Your task to perform on an android device: Search for "apple airpods pro" on newegg, select the first entry, add it to the cart, then select checkout. Image 0: 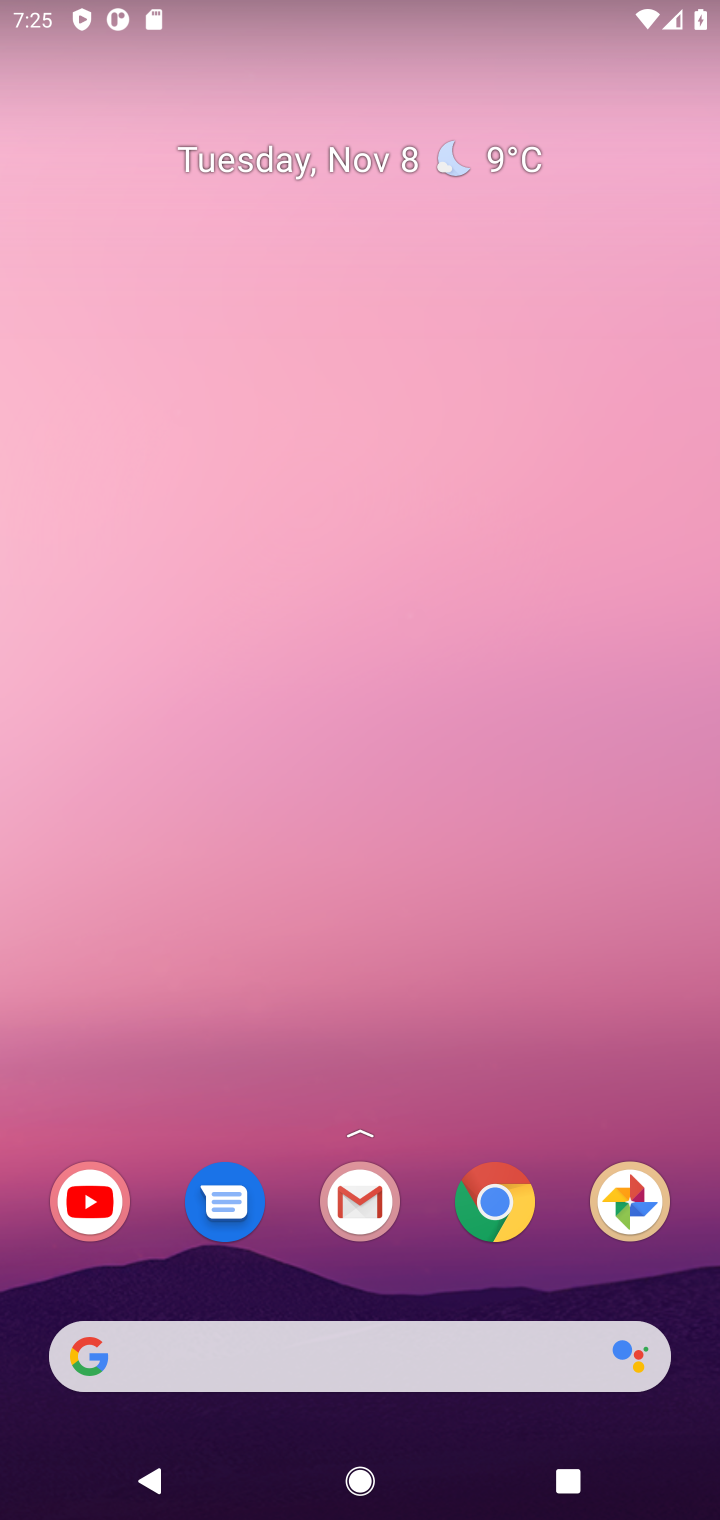
Step 0: click (219, 1355)
Your task to perform on an android device: Search for "apple airpods pro" on newegg, select the first entry, add it to the cart, then select checkout. Image 1: 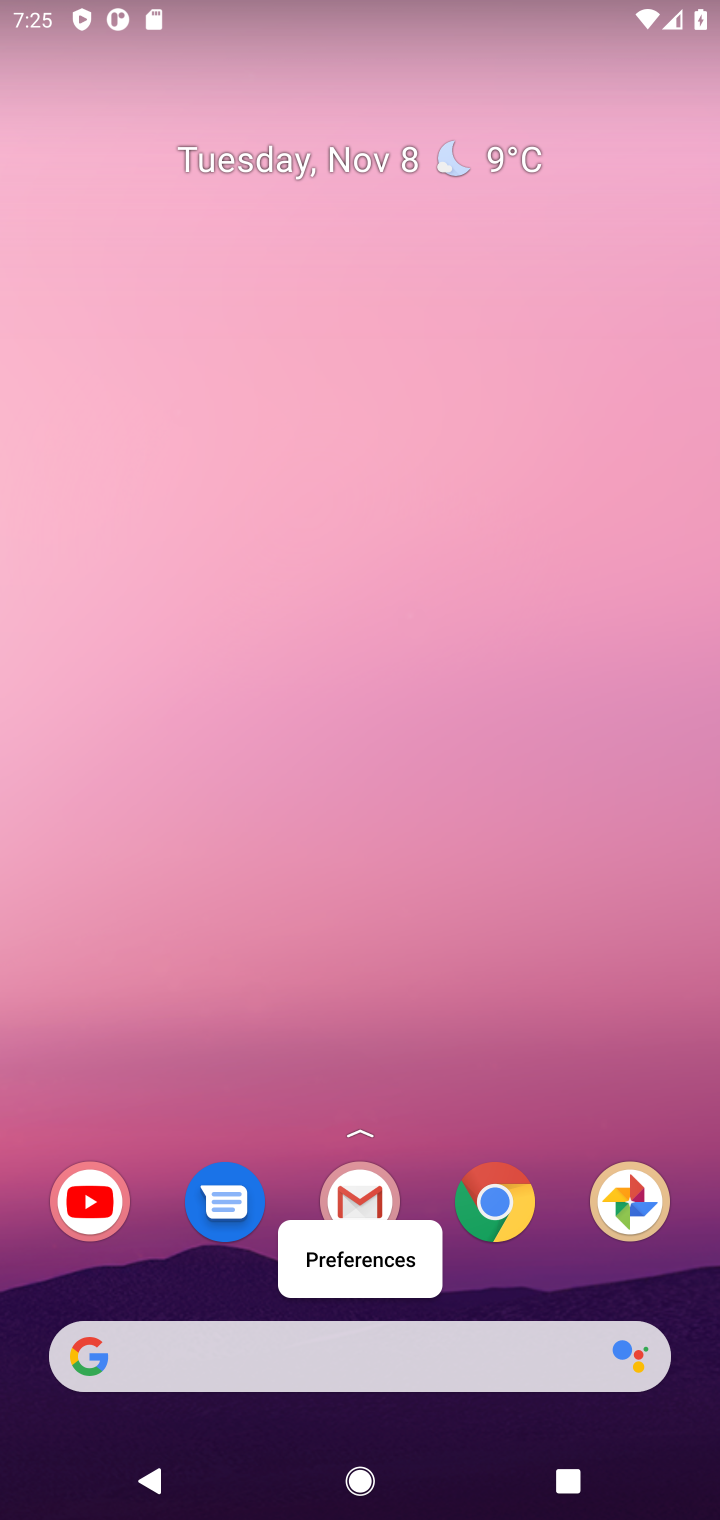
Step 1: click (219, 1355)
Your task to perform on an android device: Search for "apple airpods pro" on newegg, select the first entry, add it to the cart, then select checkout. Image 2: 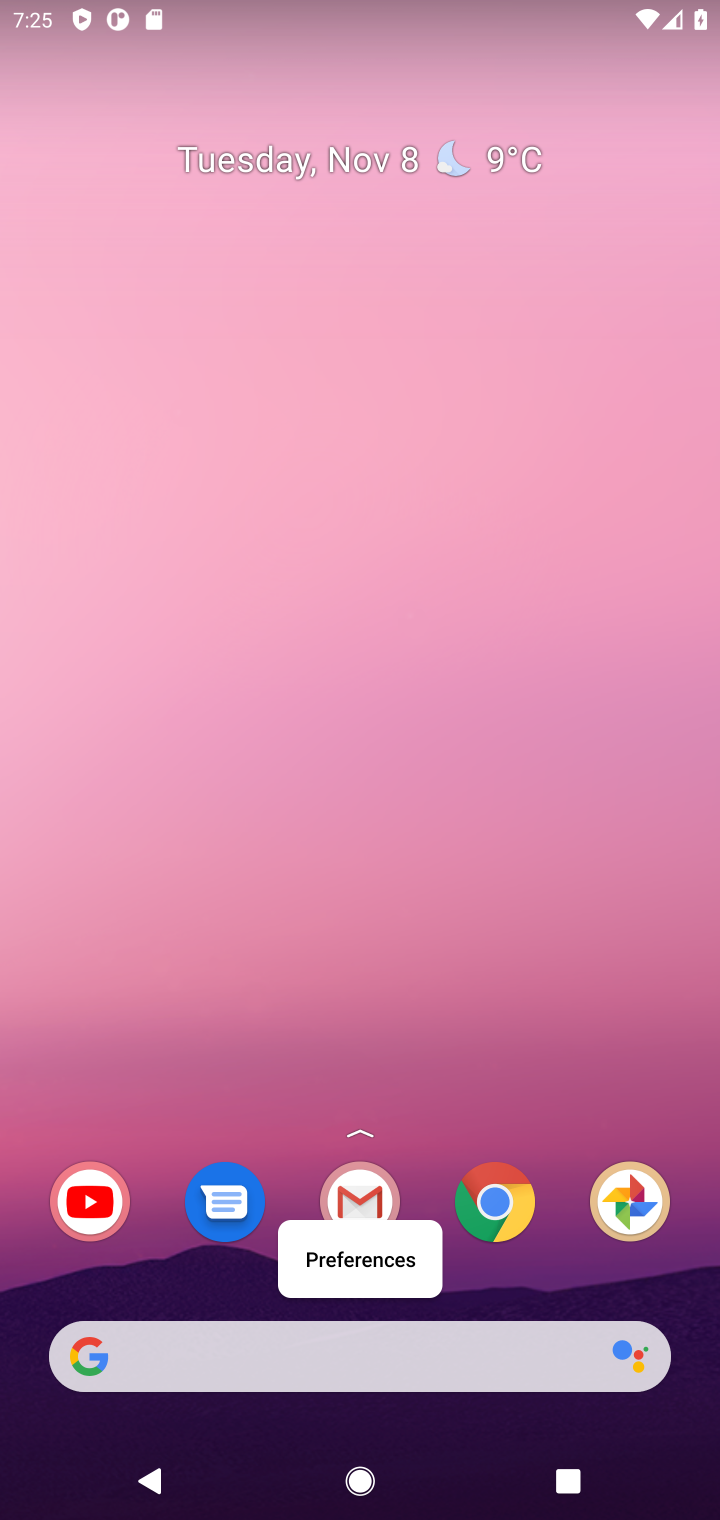
Step 2: click (219, 1355)
Your task to perform on an android device: Search for "apple airpods pro" on newegg, select the first entry, add it to the cart, then select checkout. Image 3: 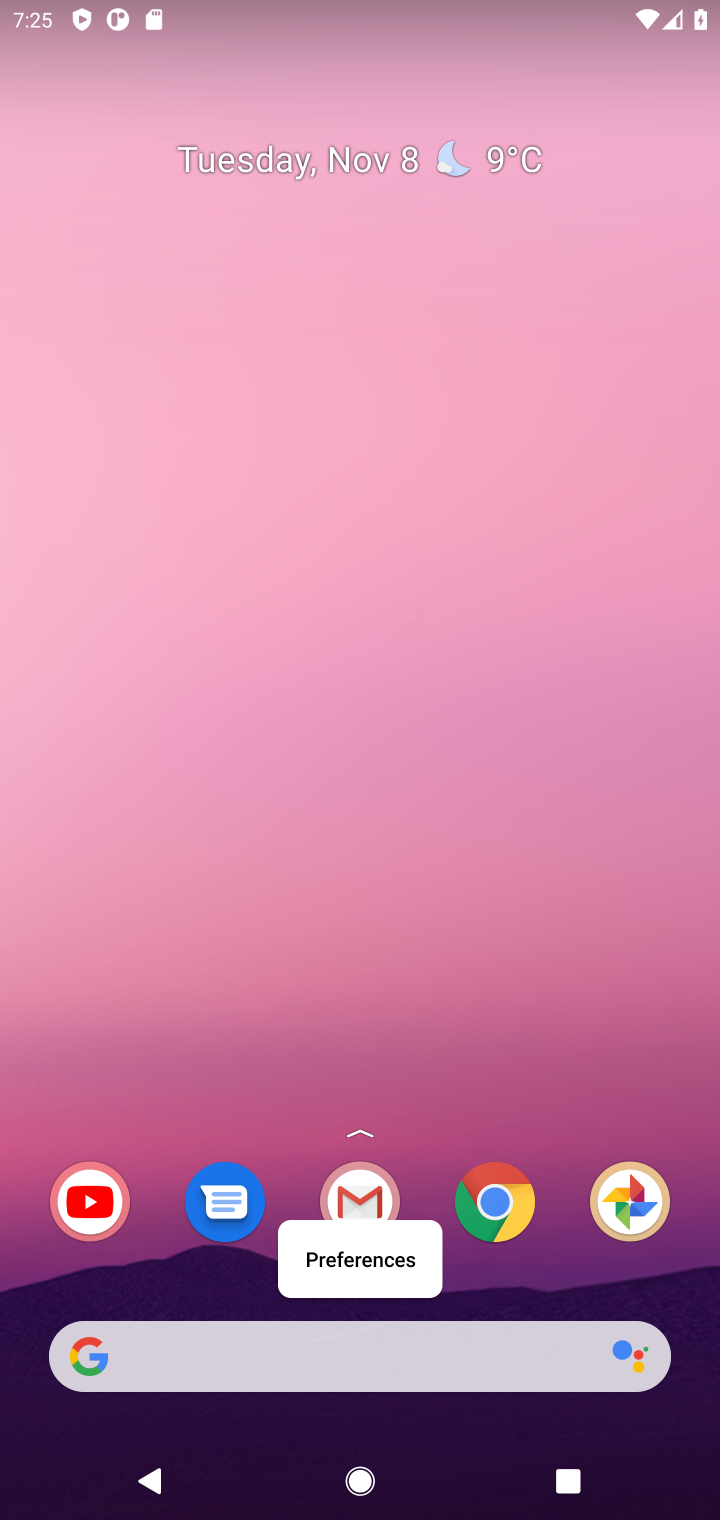
Step 3: click (251, 806)
Your task to perform on an android device: Search for "apple airpods pro" on newegg, select the first entry, add it to the cart, then select checkout. Image 4: 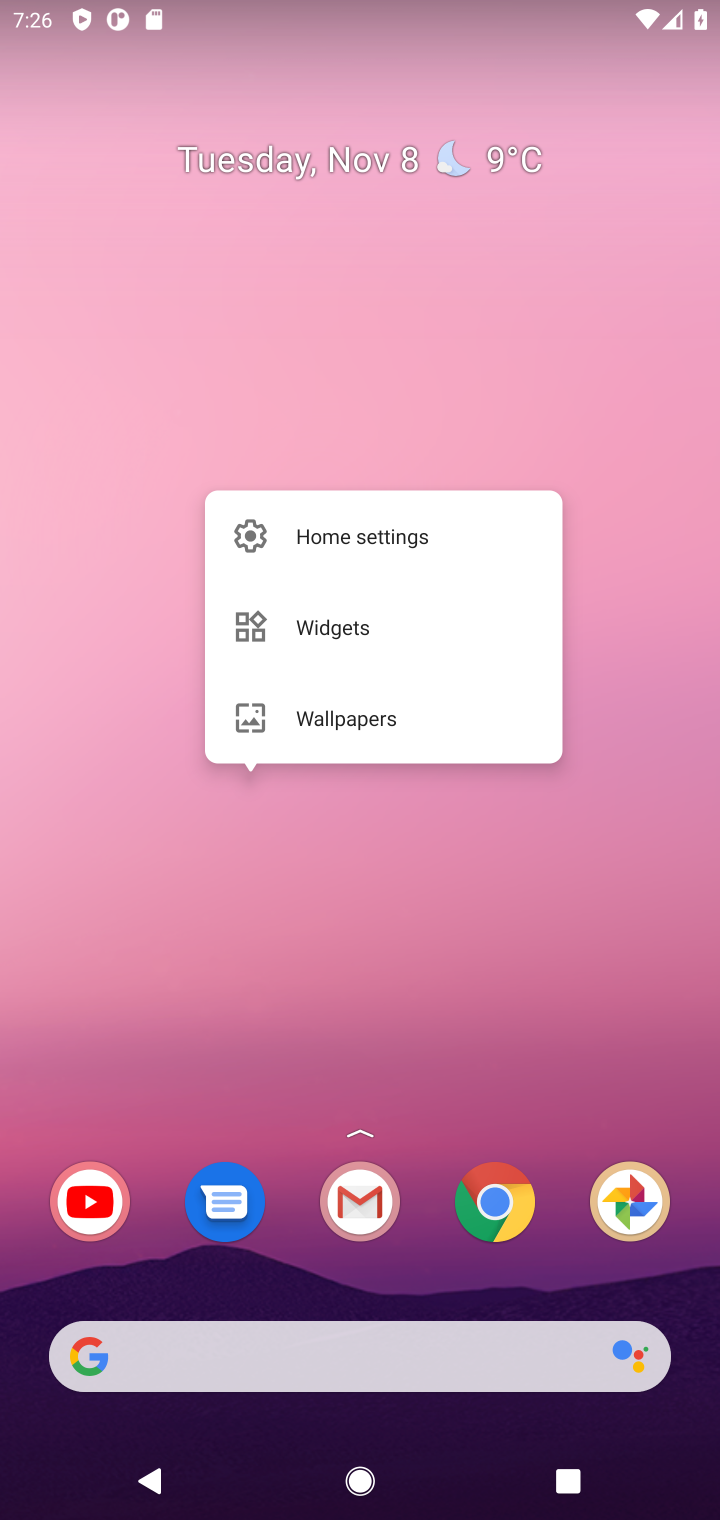
Step 4: click (369, 1347)
Your task to perform on an android device: Search for "apple airpods pro" on newegg, select the first entry, add it to the cart, then select checkout. Image 5: 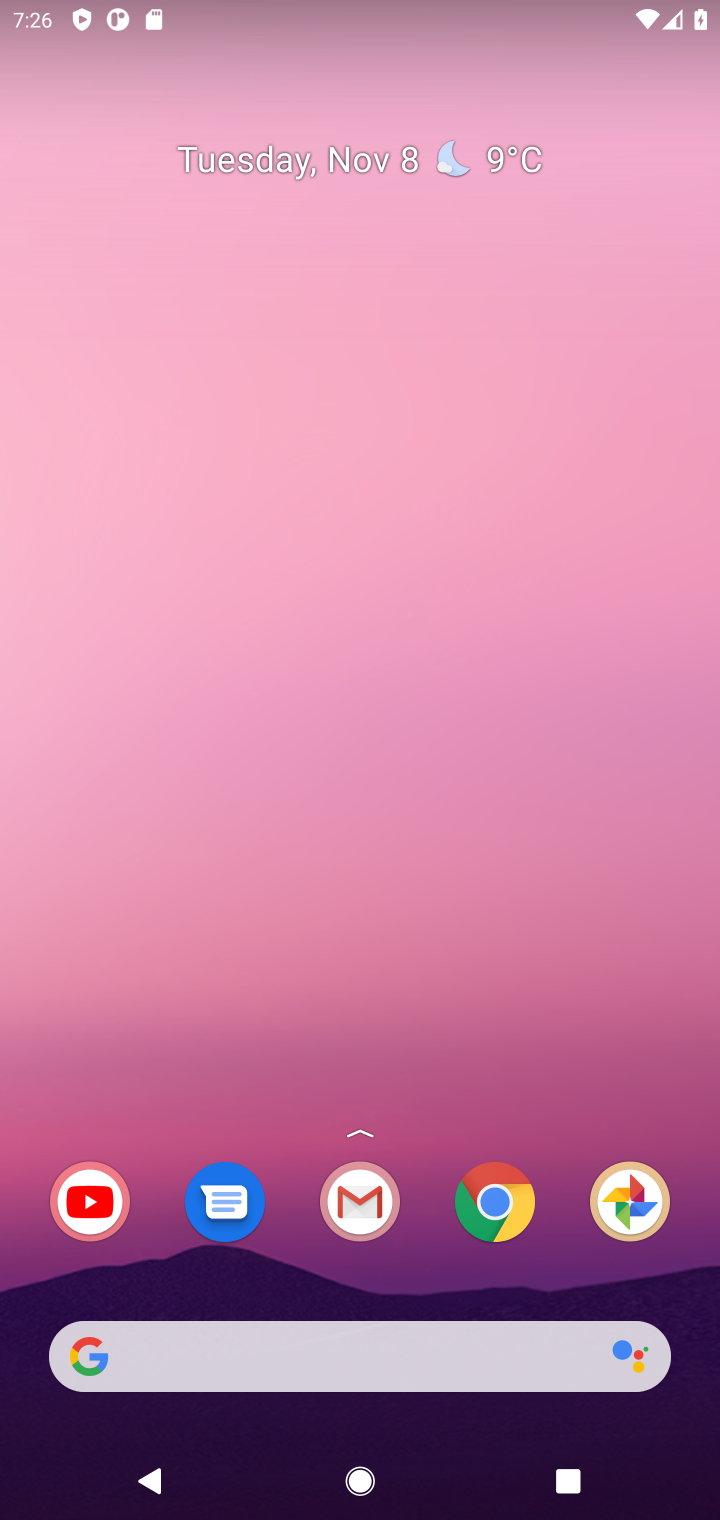
Step 5: click (371, 1352)
Your task to perform on an android device: Search for "apple airpods pro" on newegg, select the first entry, add it to the cart, then select checkout. Image 6: 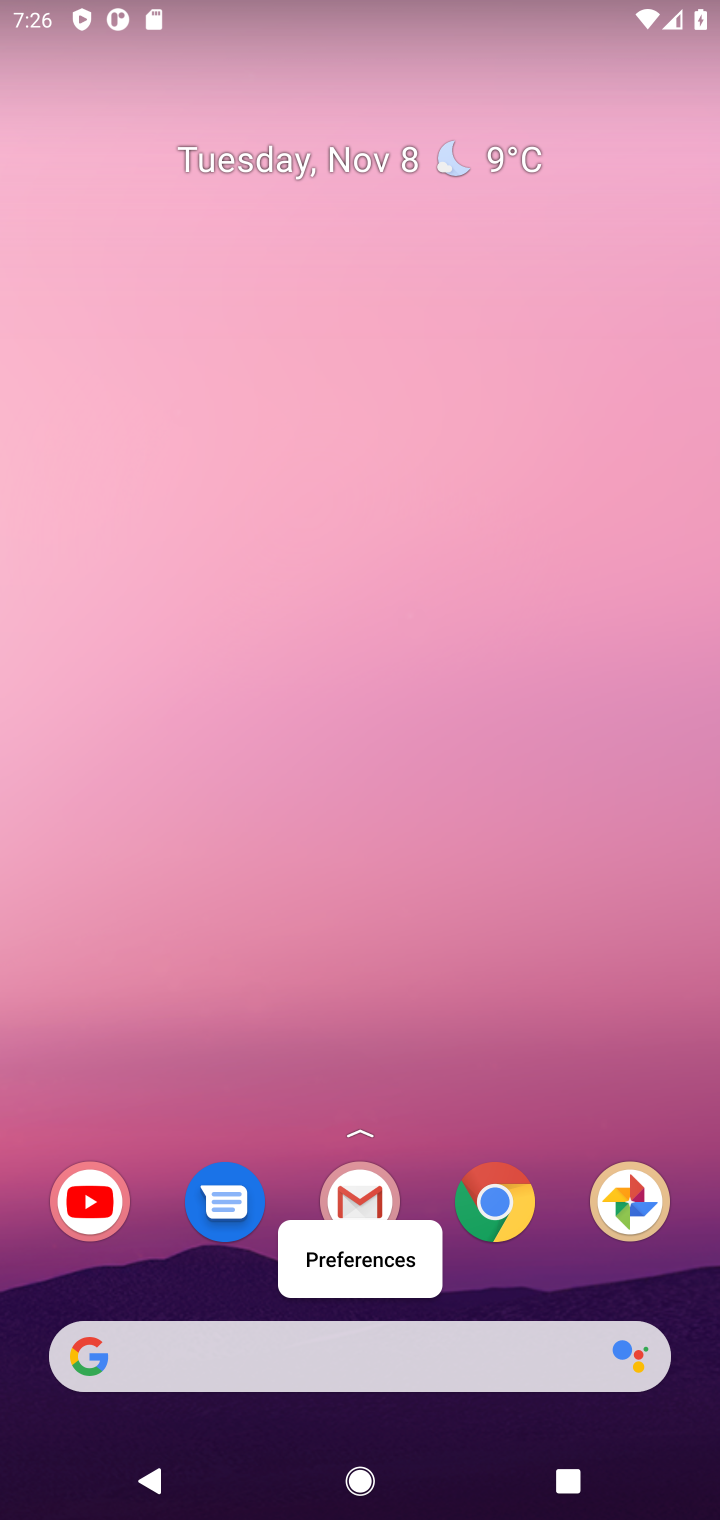
Step 6: click (371, 1352)
Your task to perform on an android device: Search for "apple airpods pro" on newegg, select the first entry, add it to the cart, then select checkout. Image 7: 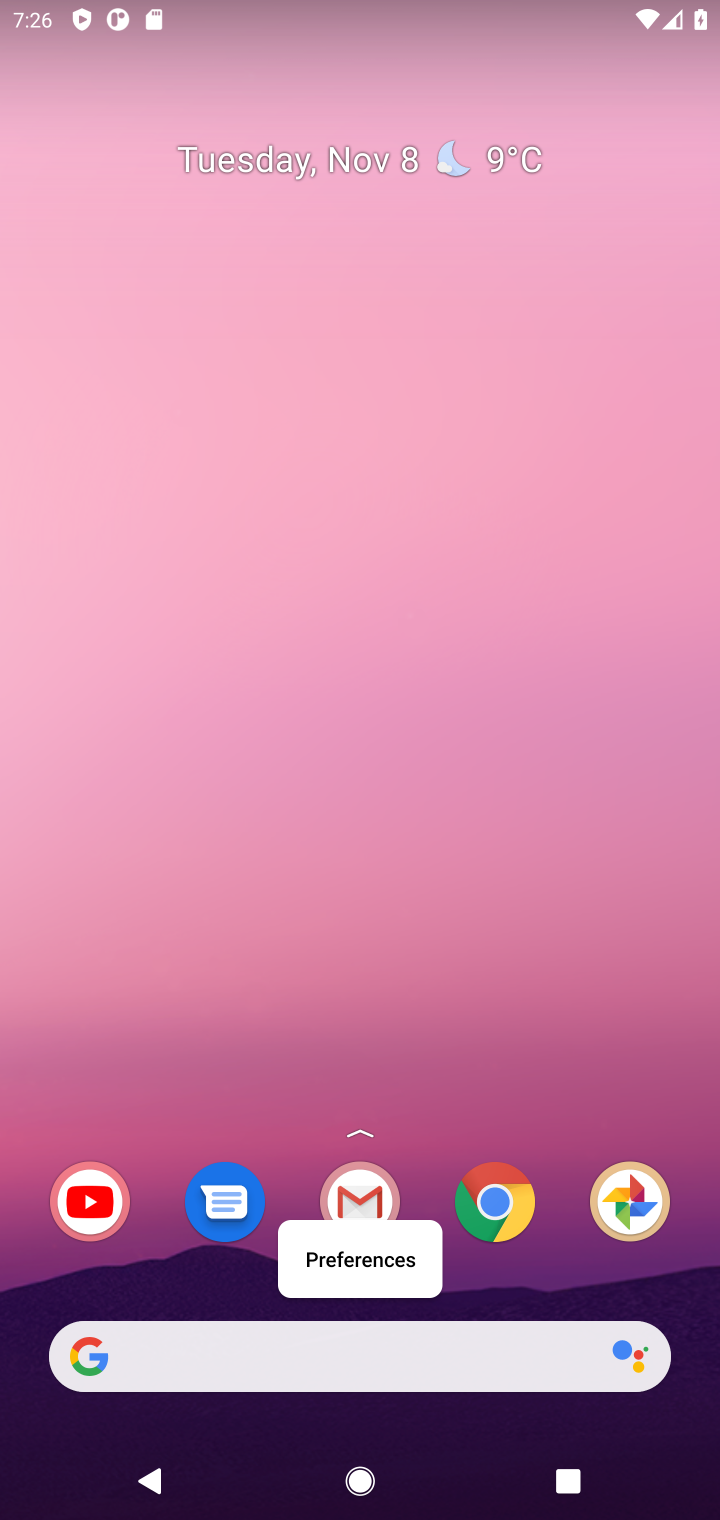
Step 7: click (373, 1354)
Your task to perform on an android device: Search for "apple airpods pro" on newegg, select the first entry, add it to the cart, then select checkout. Image 8: 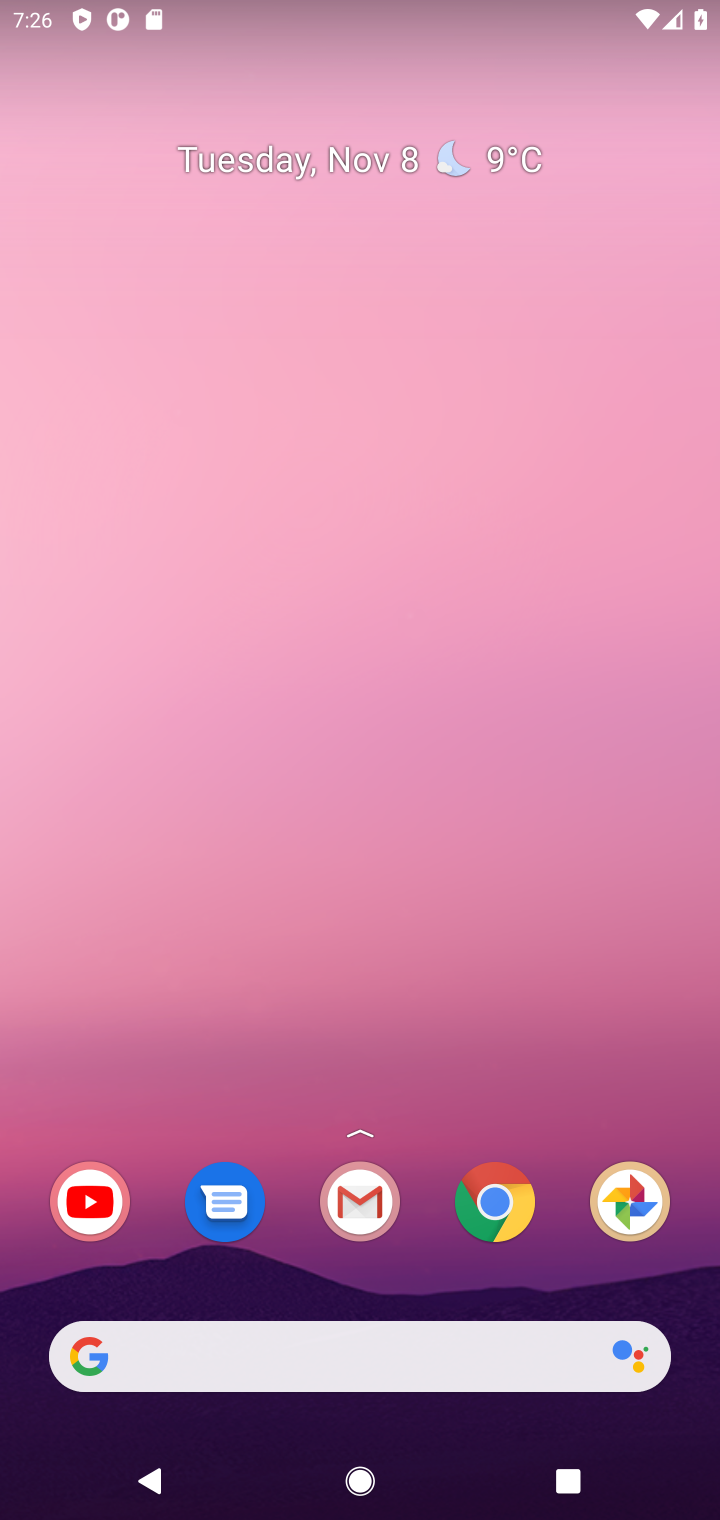
Step 8: click (501, 1189)
Your task to perform on an android device: Search for "apple airpods pro" on newegg, select the first entry, add it to the cart, then select checkout. Image 9: 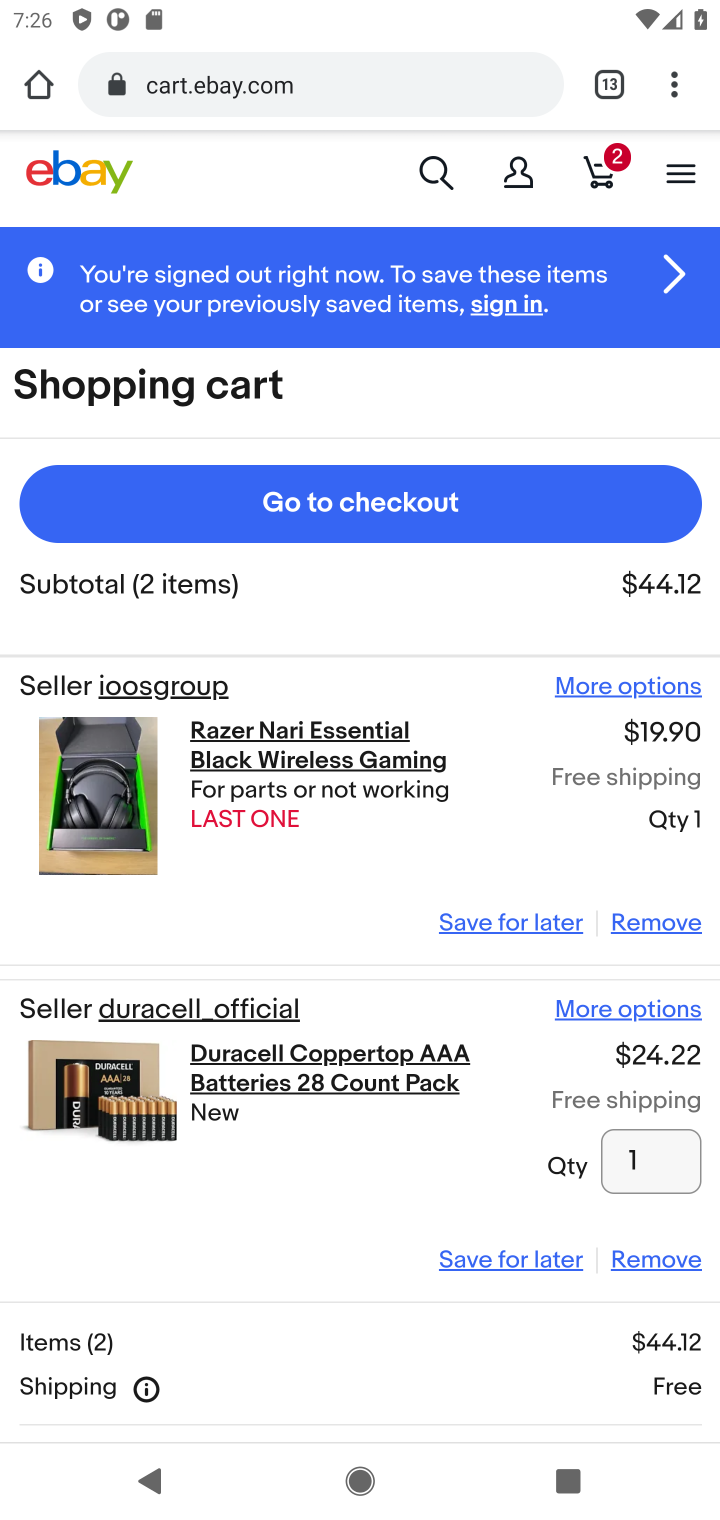
Step 9: click (359, 87)
Your task to perform on an android device: Search for "apple airpods pro" on newegg, select the first entry, add it to the cart, then select checkout. Image 10: 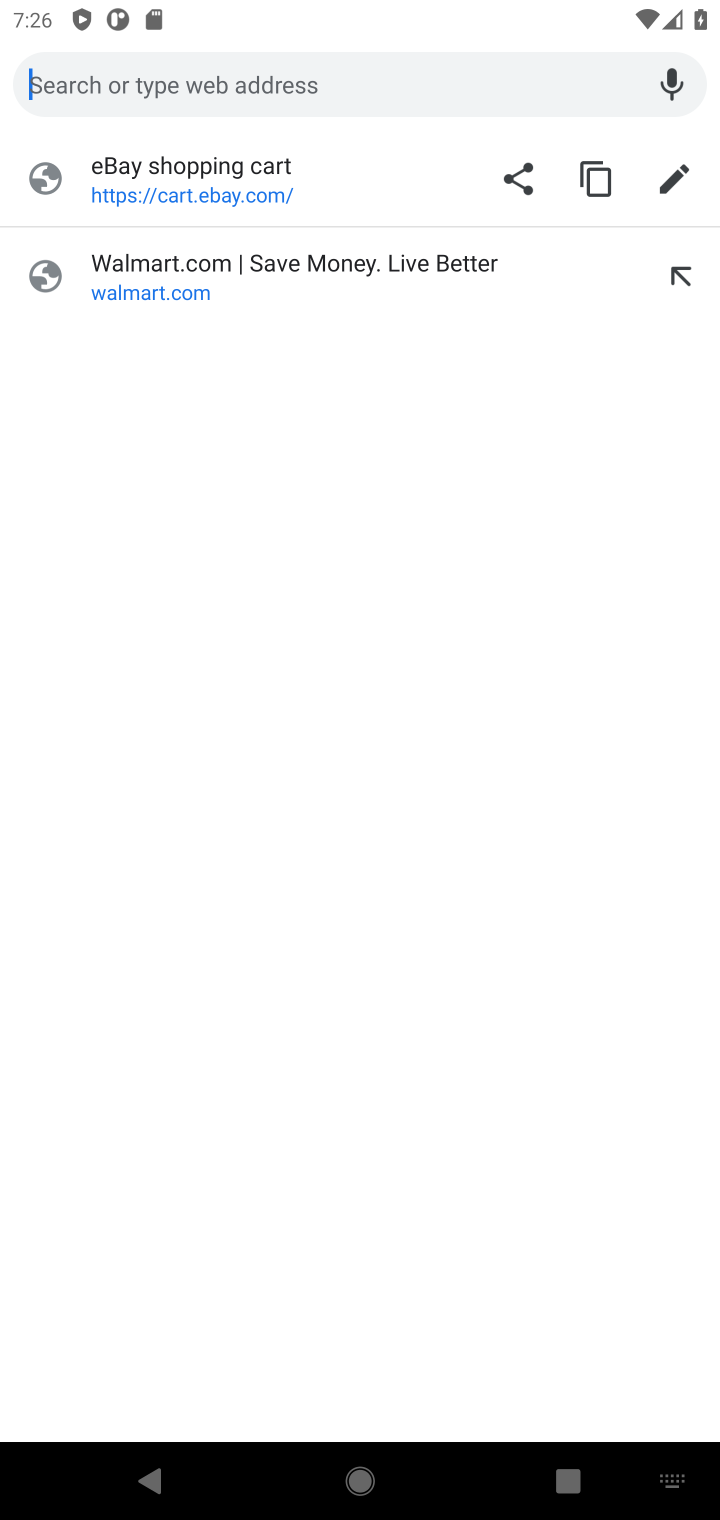
Step 10: type " newegg"
Your task to perform on an android device: Search for "apple airpods pro" on newegg, select the first entry, add it to the cart, then select checkout. Image 11: 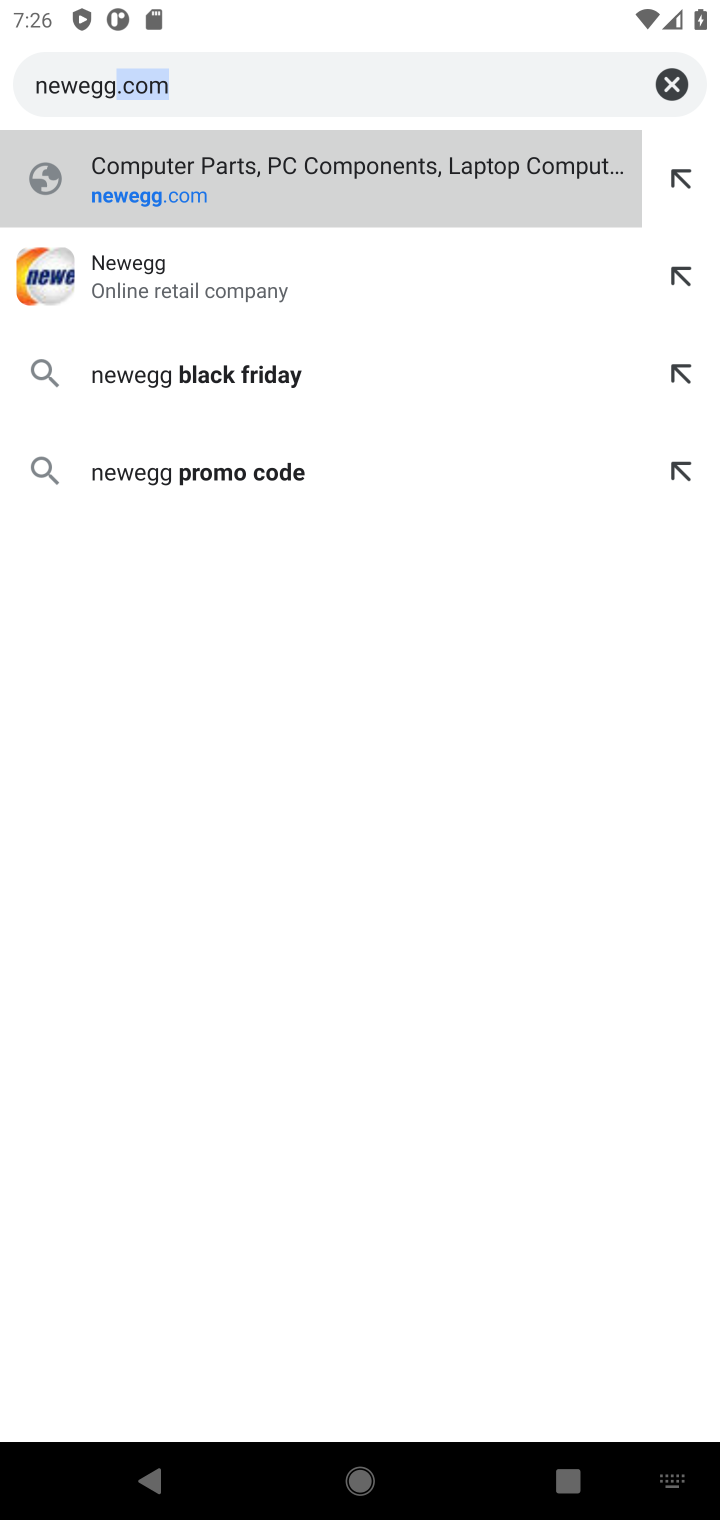
Step 11: press enter
Your task to perform on an android device: Search for "apple airpods pro" on newegg, select the first entry, add it to the cart, then select checkout. Image 12: 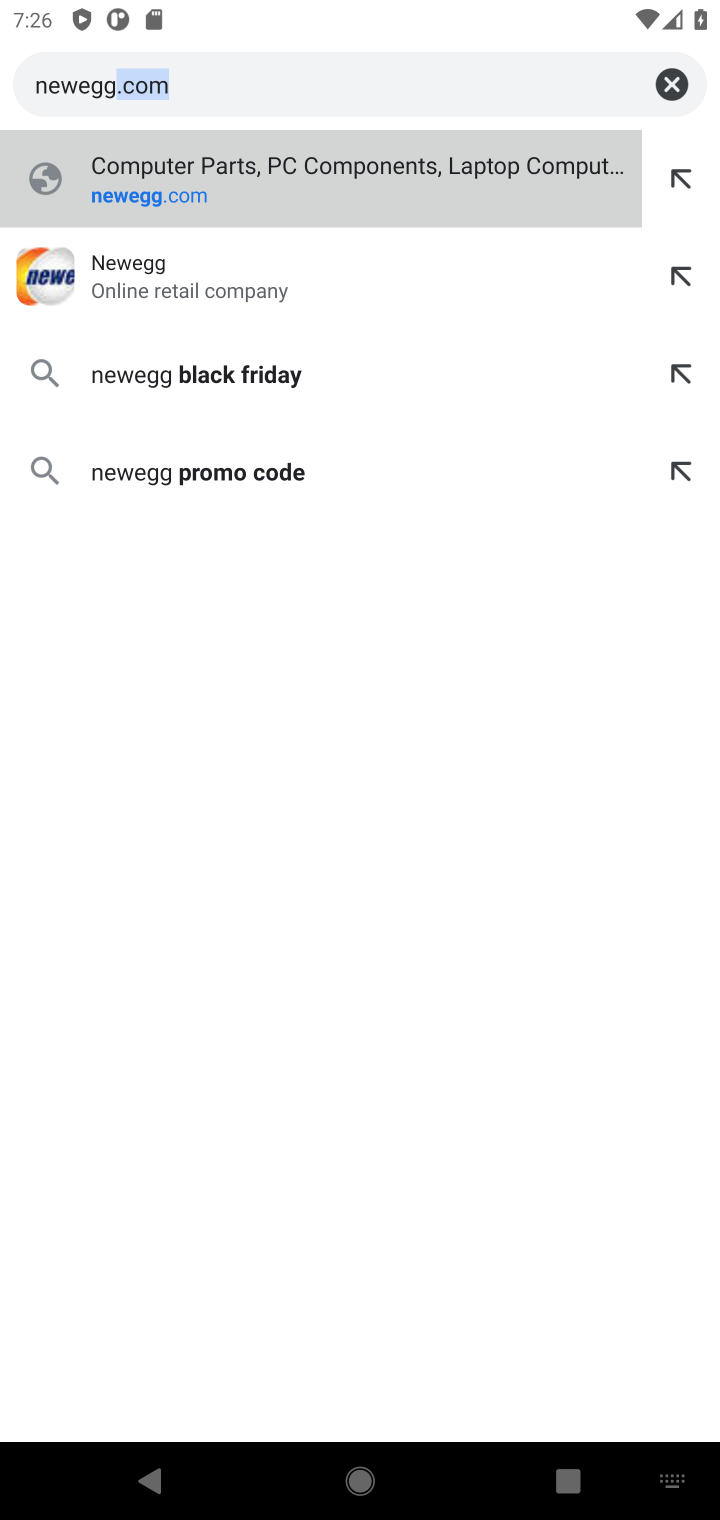
Step 12: type ""
Your task to perform on an android device: Search for "apple airpods pro" on newegg, select the first entry, add it to the cart, then select checkout. Image 13: 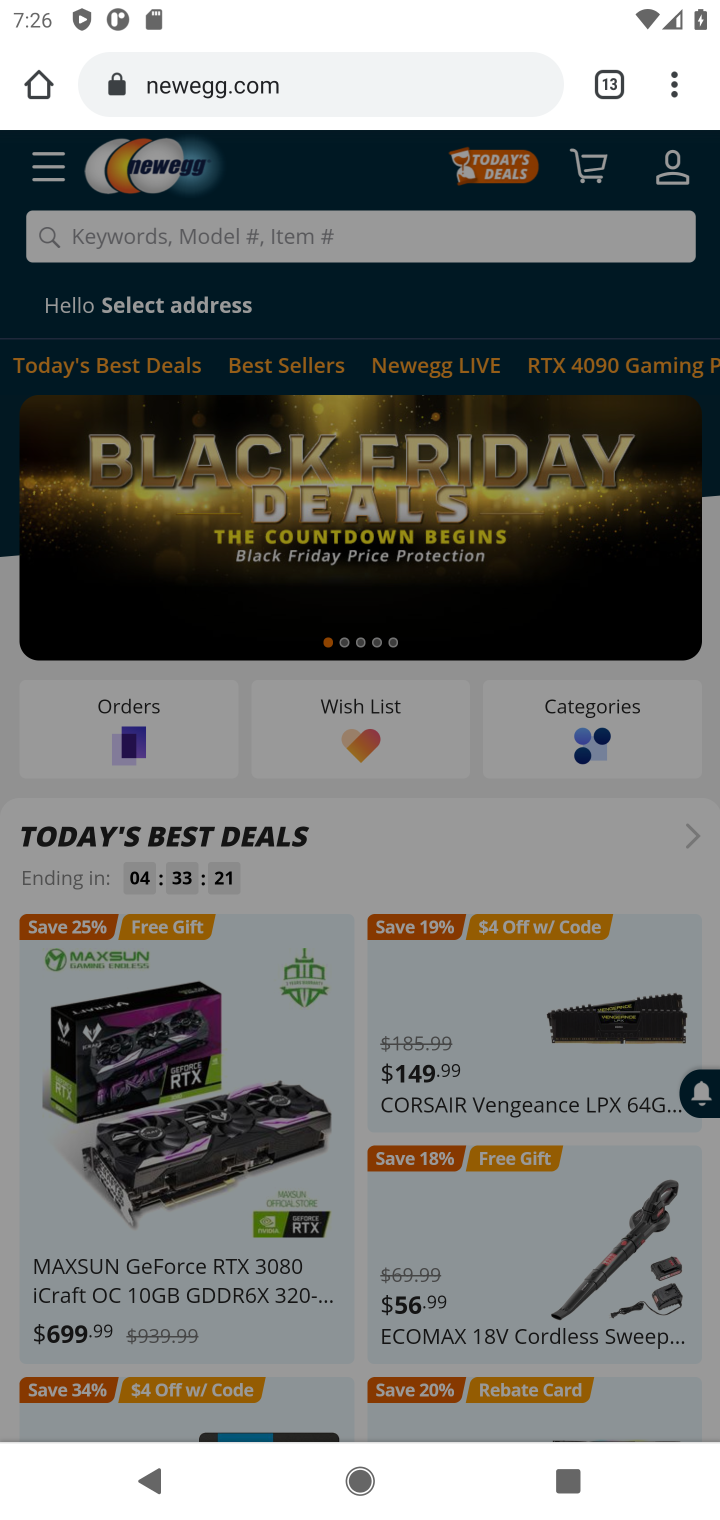
Step 13: drag from (360, 836) to (374, 599)
Your task to perform on an android device: Search for "apple airpods pro" on newegg, select the first entry, add it to the cart, then select checkout. Image 14: 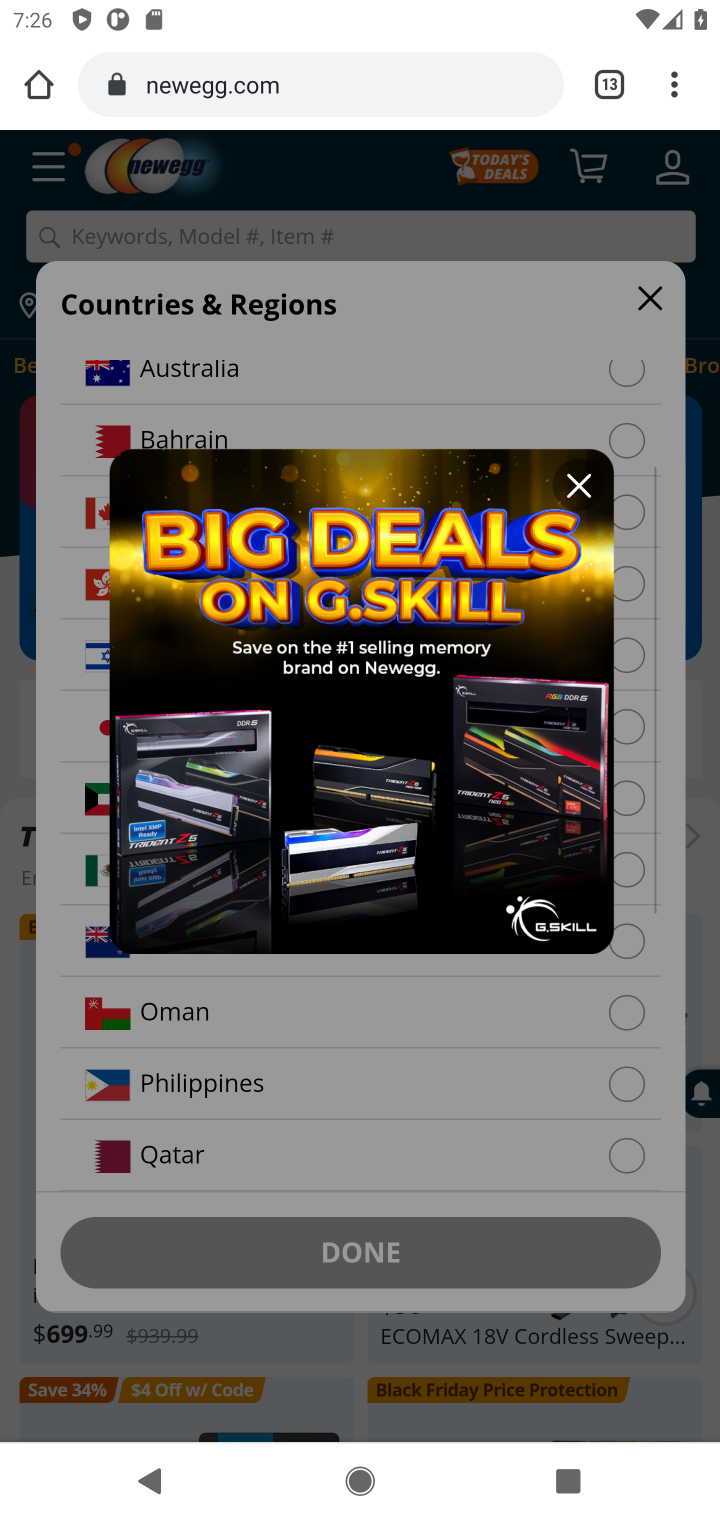
Step 14: click (582, 489)
Your task to perform on an android device: Search for "apple airpods pro" on newegg, select the first entry, add it to the cart, then select checkout. Image 15: 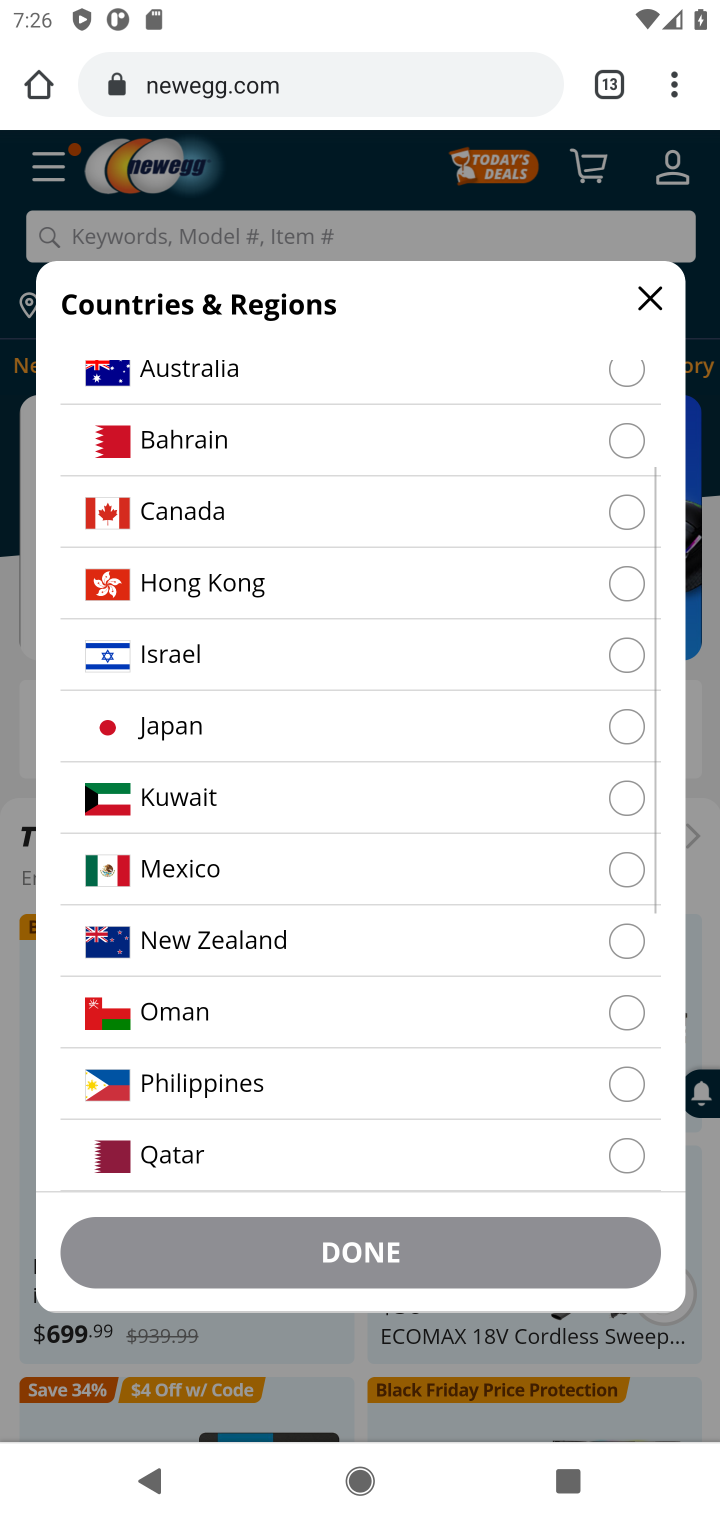
Step 15: drag from (311, 409) to (261, 1111)
Your task to perform on an android device: Search for "apple airpods pro" on newegg, select the first entry, add it to the cart, then select checkout. Image 16: 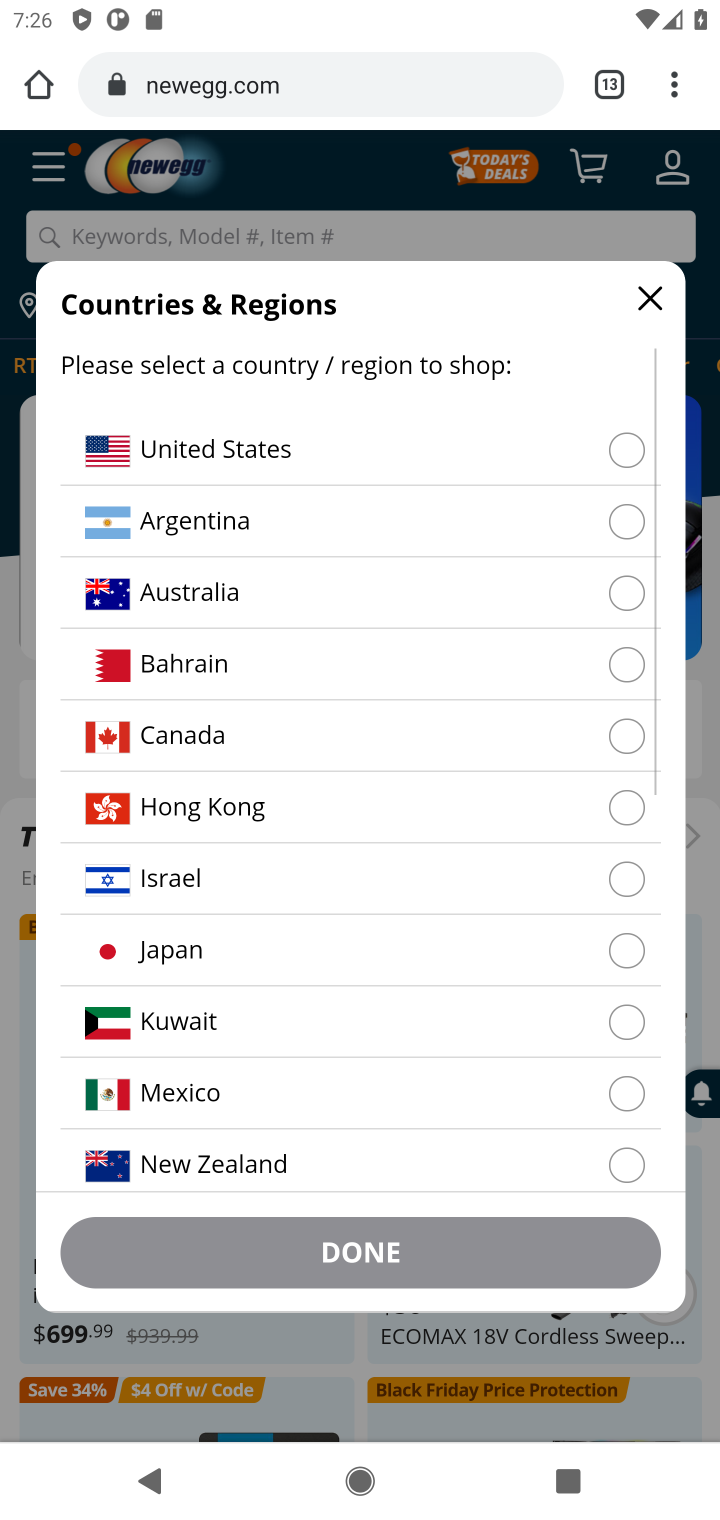
Step 16: click (266, 452)
Your task to perform on an android device: Search for "apple airpods pro" on newegg, select the first entry, add it to the cart, then select checkout. Image 17: 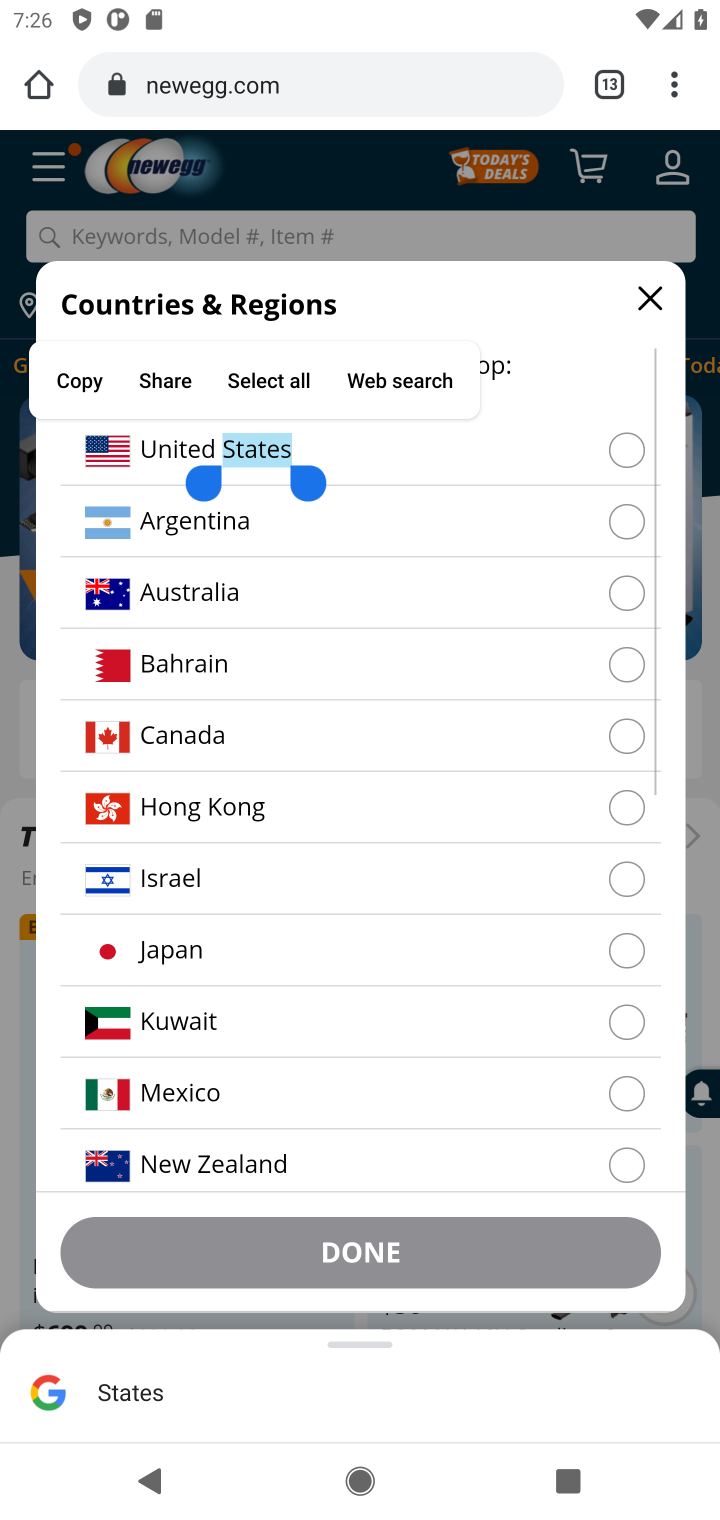
Step 17: click (619, 442)
Your task to perform on an android device: Search for "apple airpods pro" on newegg, select the first entry, add it to the cart, then select checkout. Image 18: 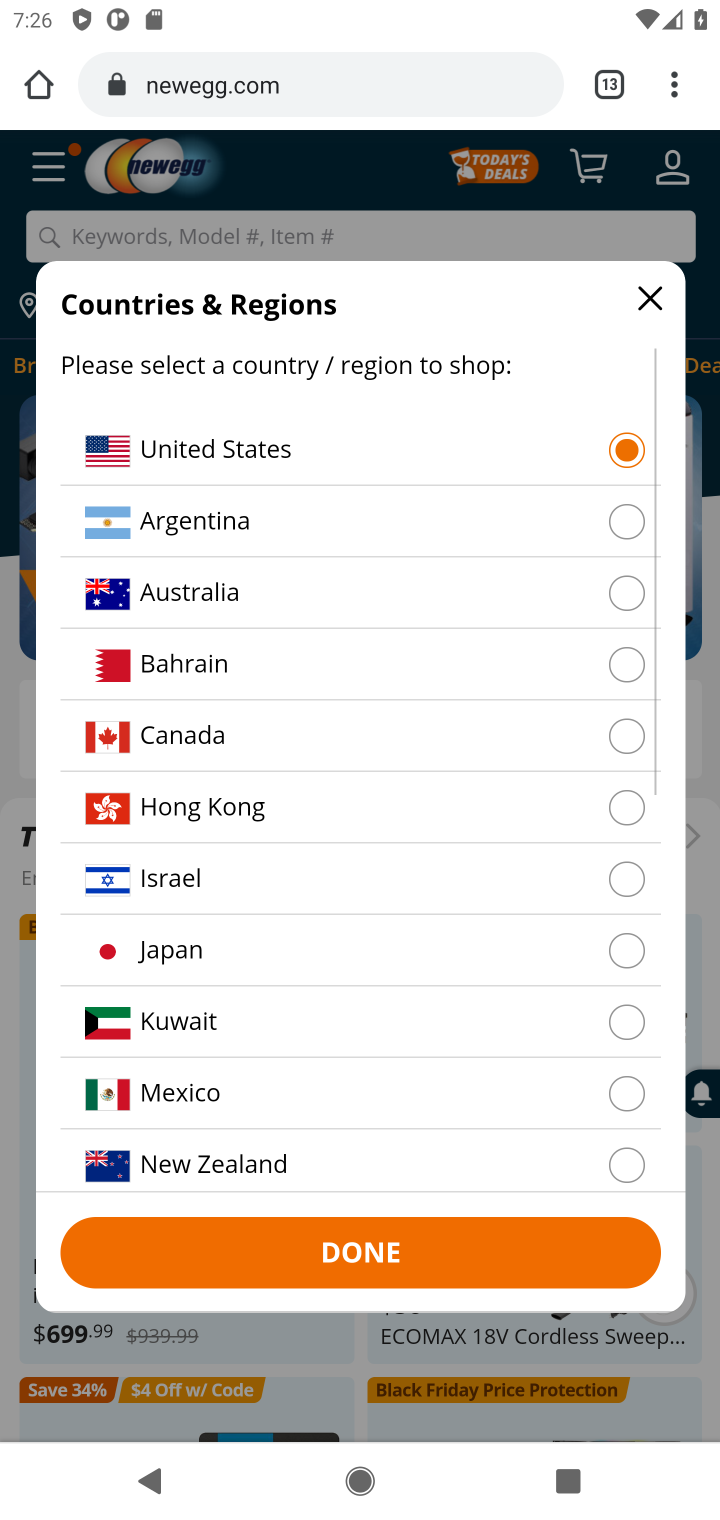
Step 18: click (377, 1235)
Your task to perform on an android device: Search for "apple airpods pro" on newegg, select the first entry, add it to the cart, then select checkout. Image 19: 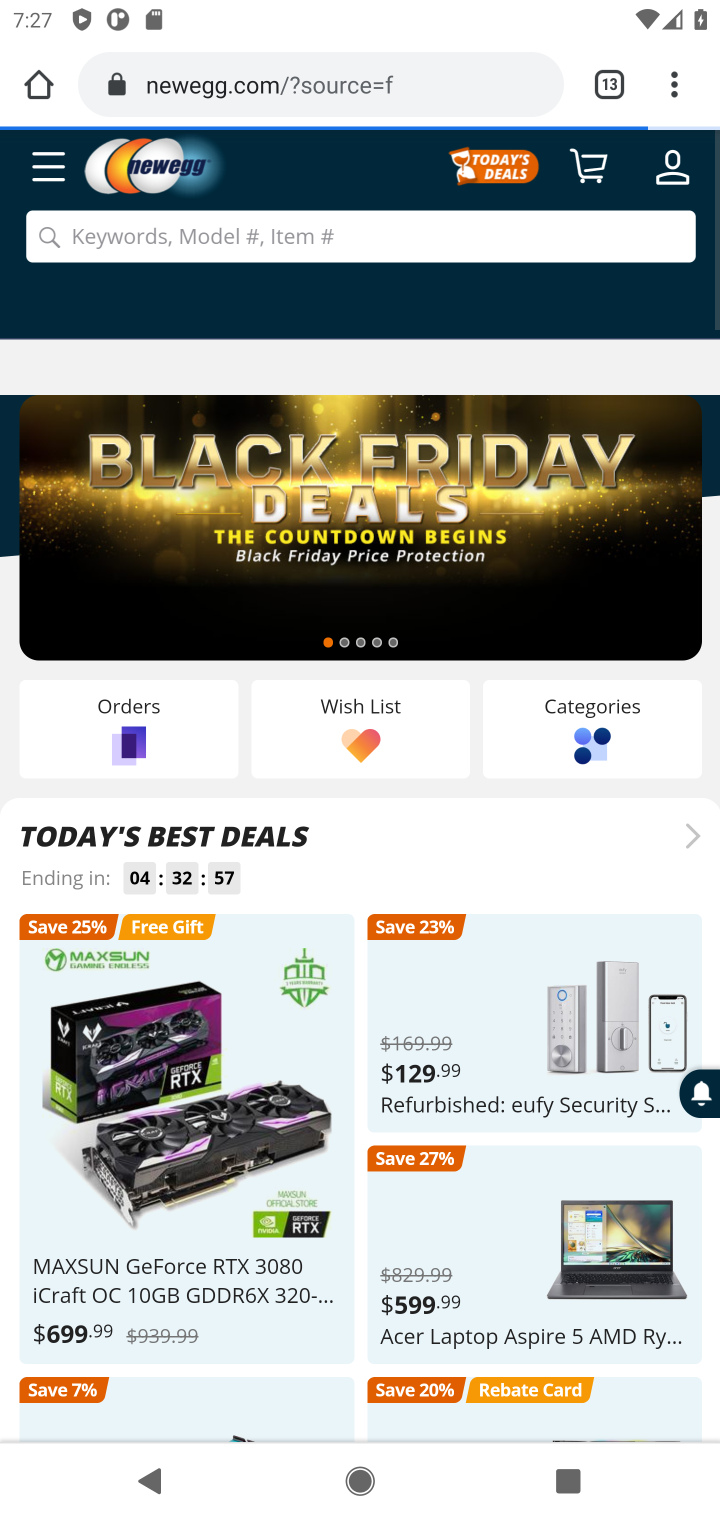
Step 19: drag from (365, 824) to (379, 302)
Your task to perform on an android device: Search for "apple airpods pro" on newegg, select the first entry, add it to the cart, then select checkout. Image 20: 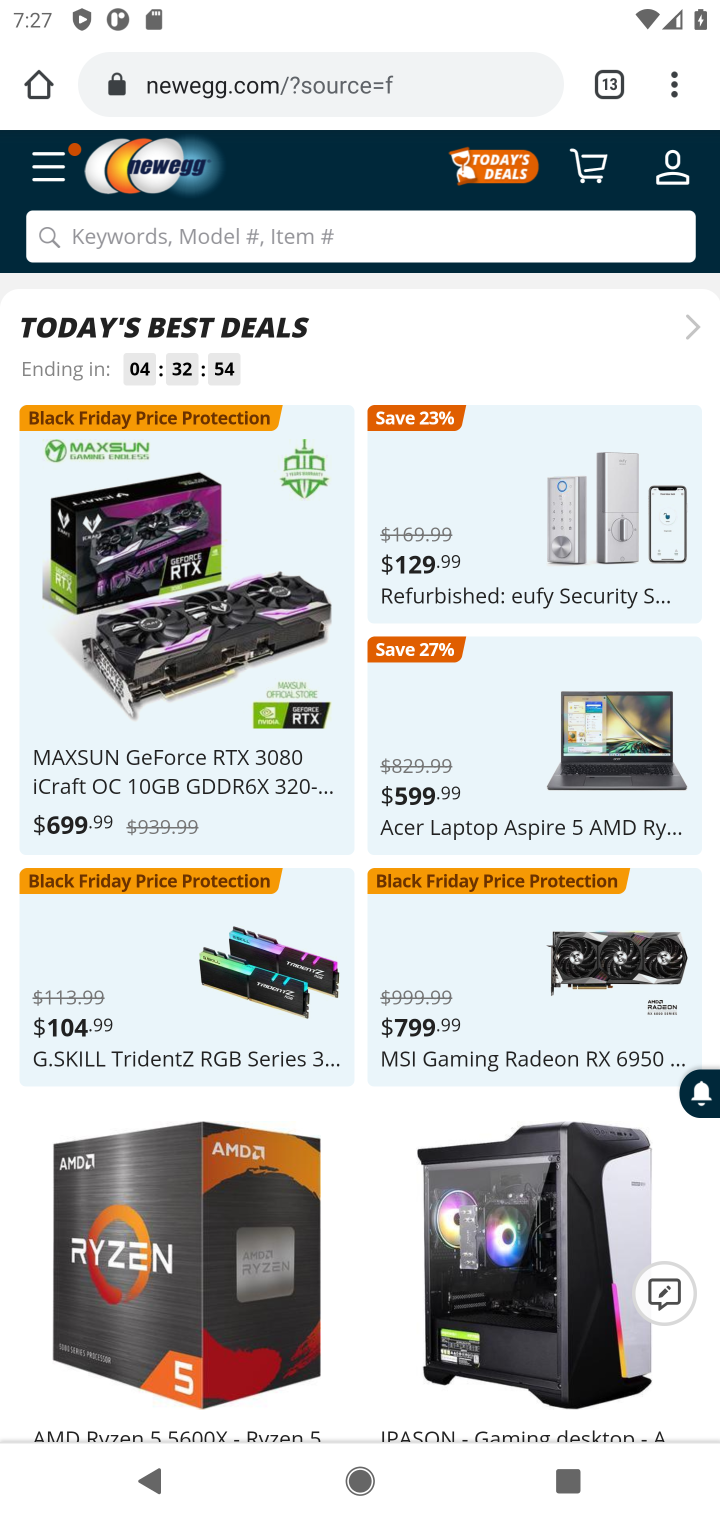
Step 20: drag from (359, 1092) to (356, 230)
Your task to perform on an android device: Search for "apple airpods pro" on newegg, select the first entry, add it to the cart, then select checkout. Image 21: 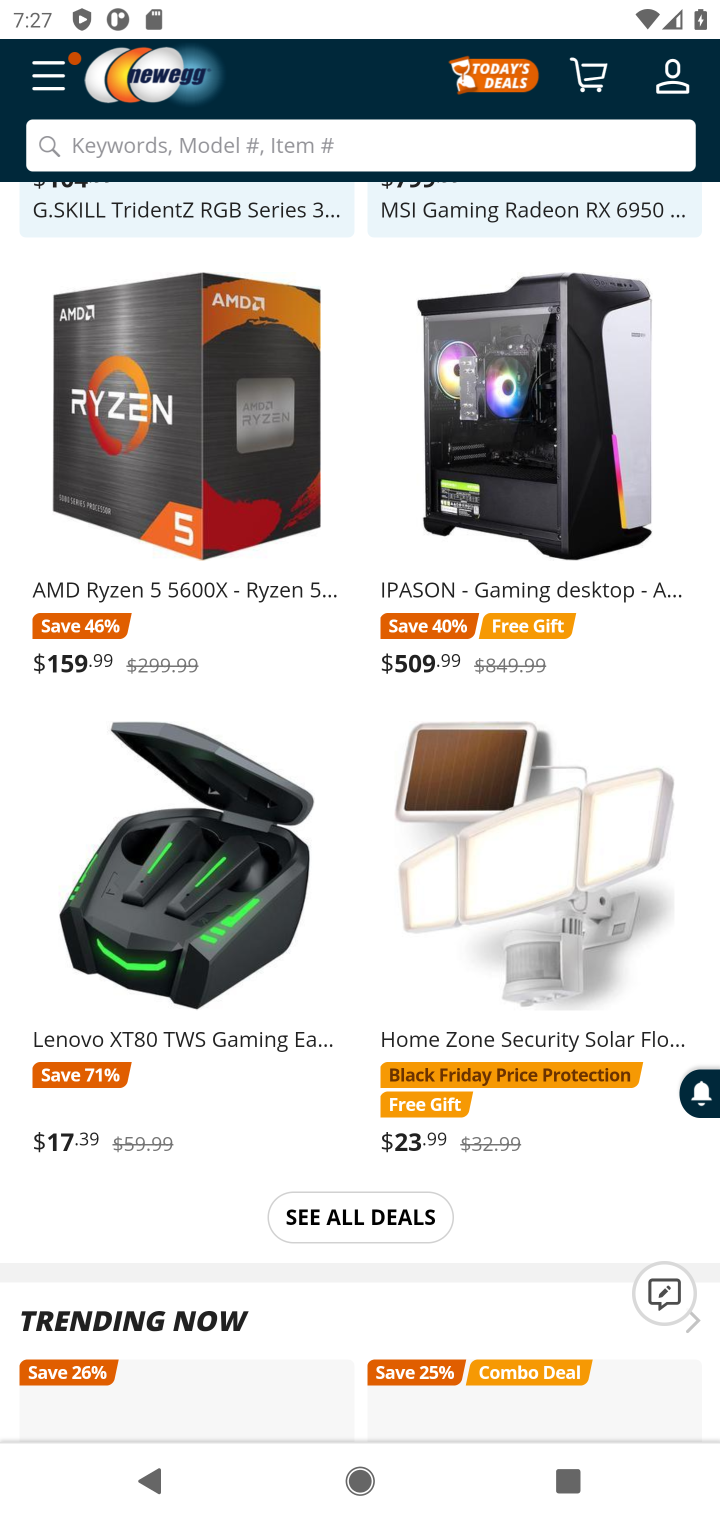
Step 21: drag from (251, 1213) to (358, 460)
Your task to perform on an android device: Search for "apple airpods pro" on newegg, select the first entry, add it to the cart, then select checkout. Image 22: 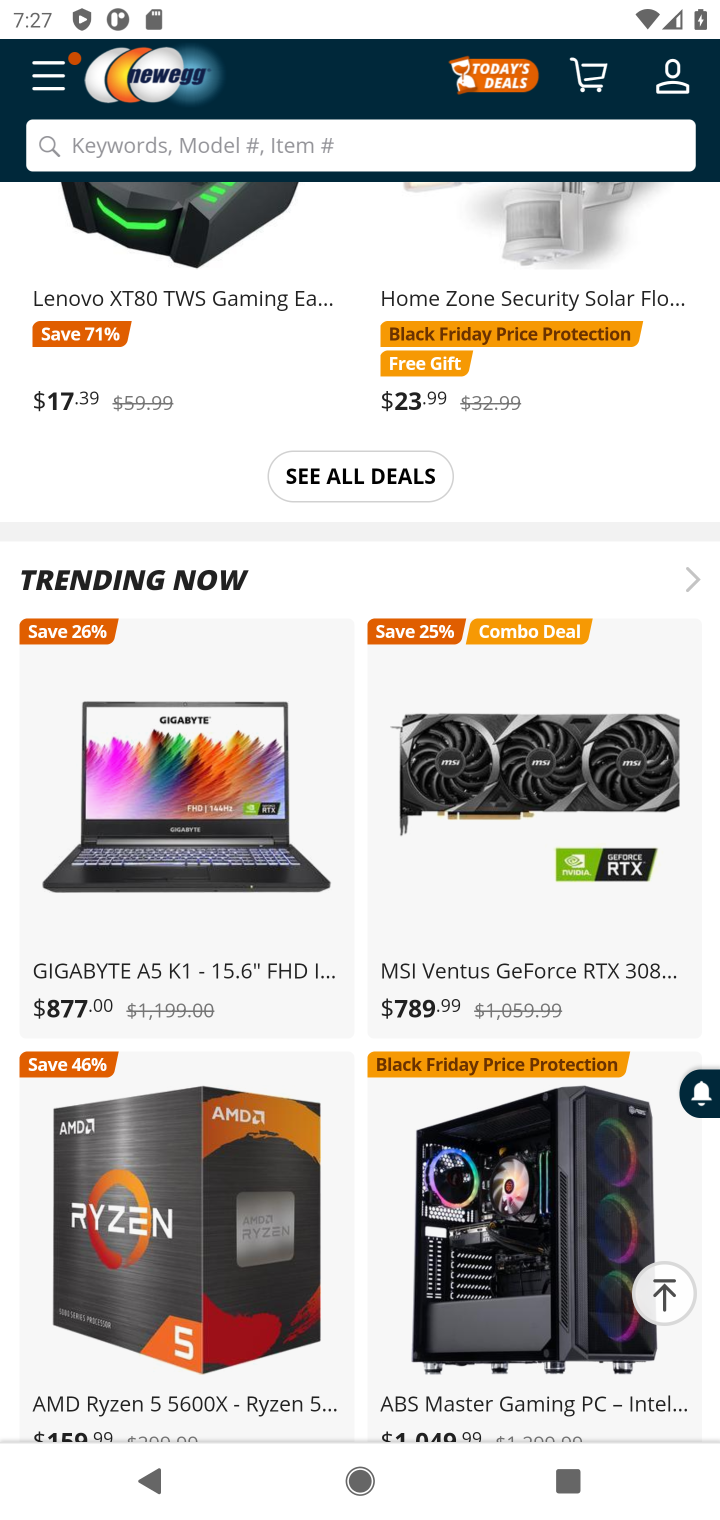
Step 22: click (328, 132)
Your task to perform on an android device: Search for "apple airpods pro" on newegg, select the first entry, add it to the cart, then select checkout. Image 23: 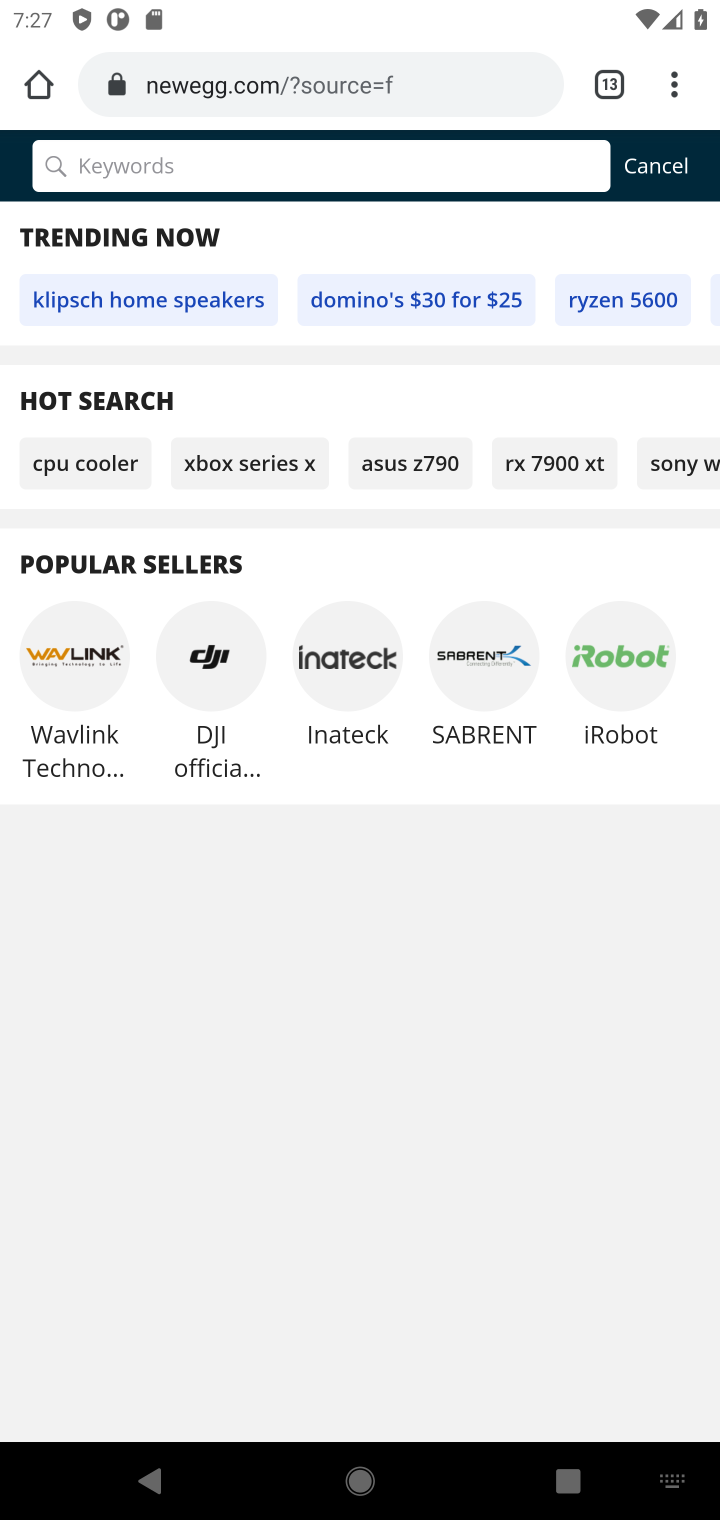
Step 23: type "apple airpods pro"
Your task to perform on an android device: Search for "apple airpods pro" on newegg, select the first entry, add it to the cart, then select checkout. Image 24: 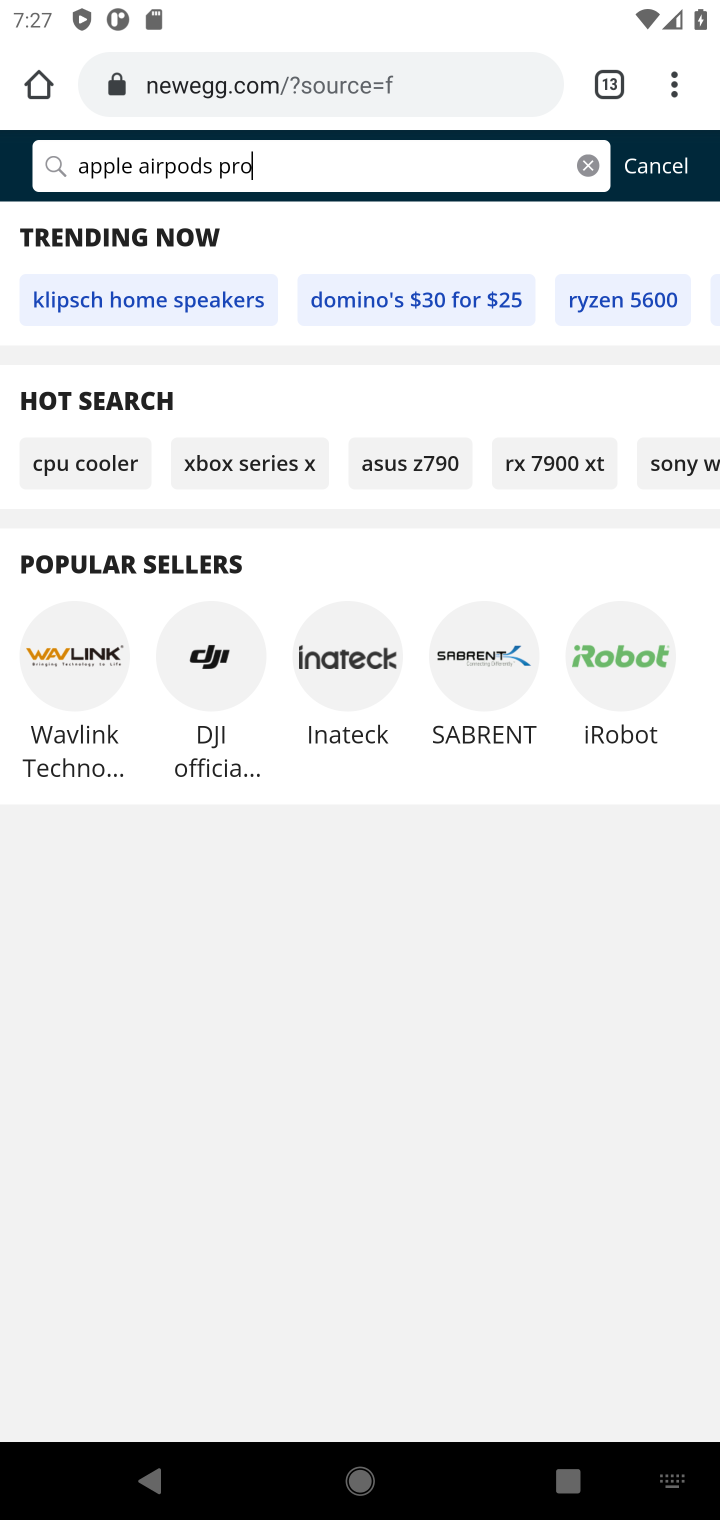
Step 24: type ""
Your task to perform on an android device: Search for "apple airpods pro" on newegg, select the first entry, add it to the cart, then select checkout. Image 25: 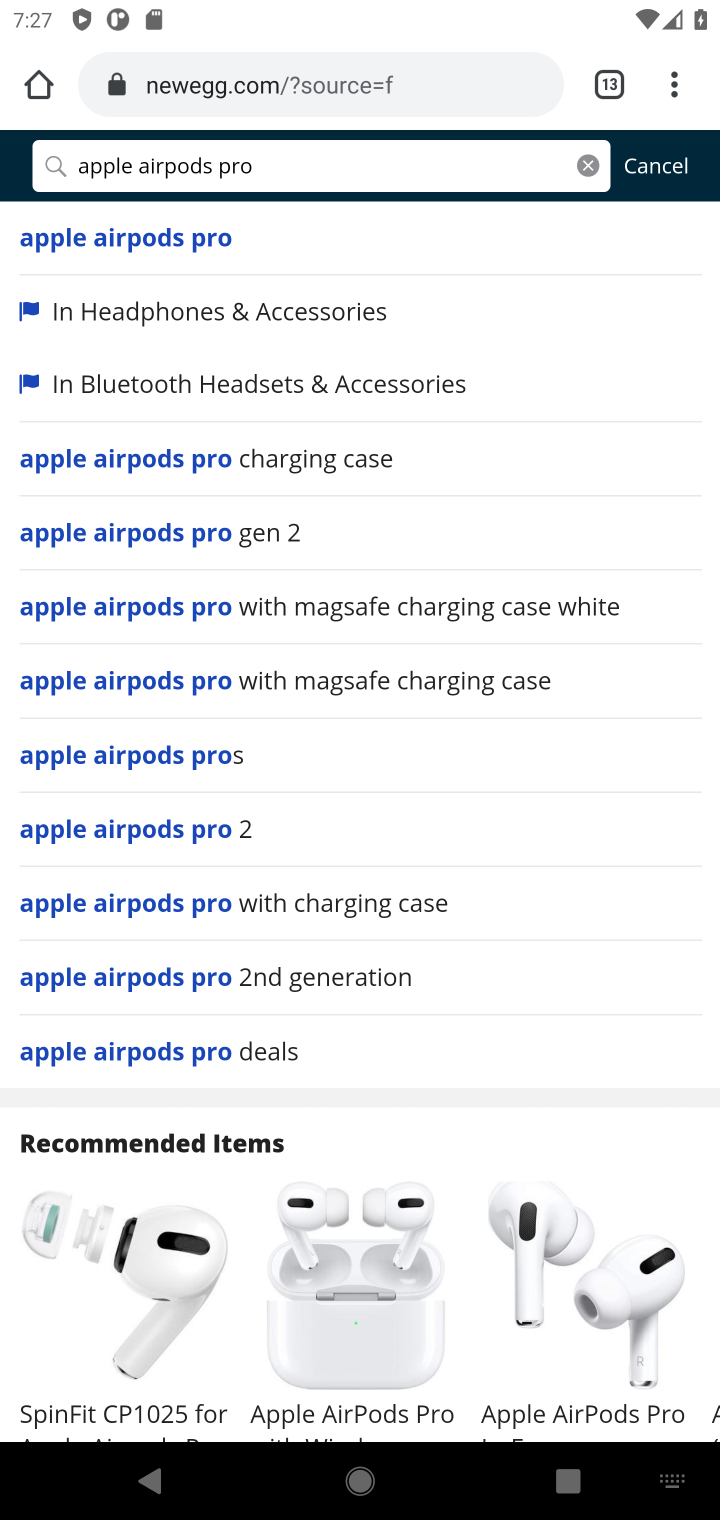
Step 25: press enter
Your task to perform on an android device: Search for "apple airpods pro" on newegg, select the first entry, add it to the cart, then select checkout. Image 26: 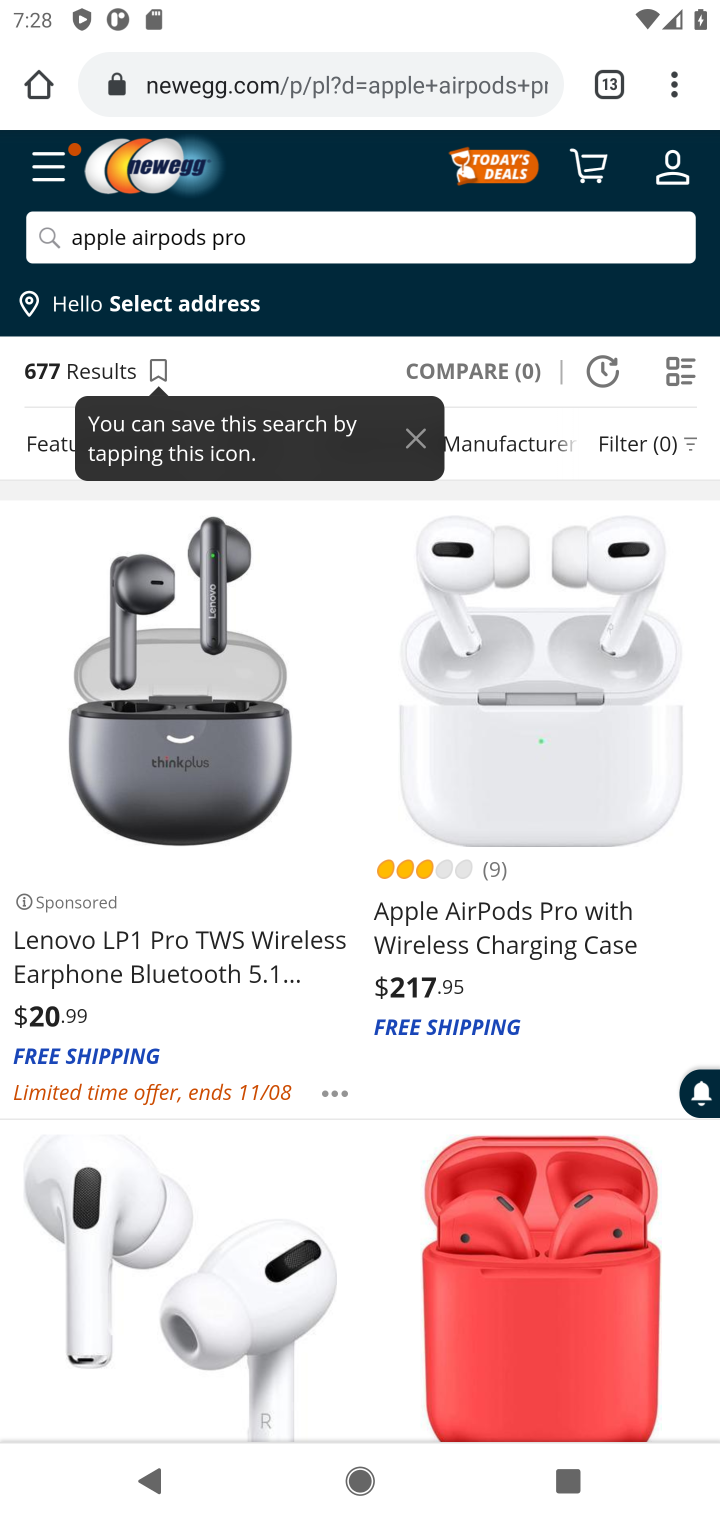
Step 26: press enter
Your task to perform on an android device: Search for "apple airpods pro" on newegg, select the first entry, add it to the cart, then select checkout. Image 27: 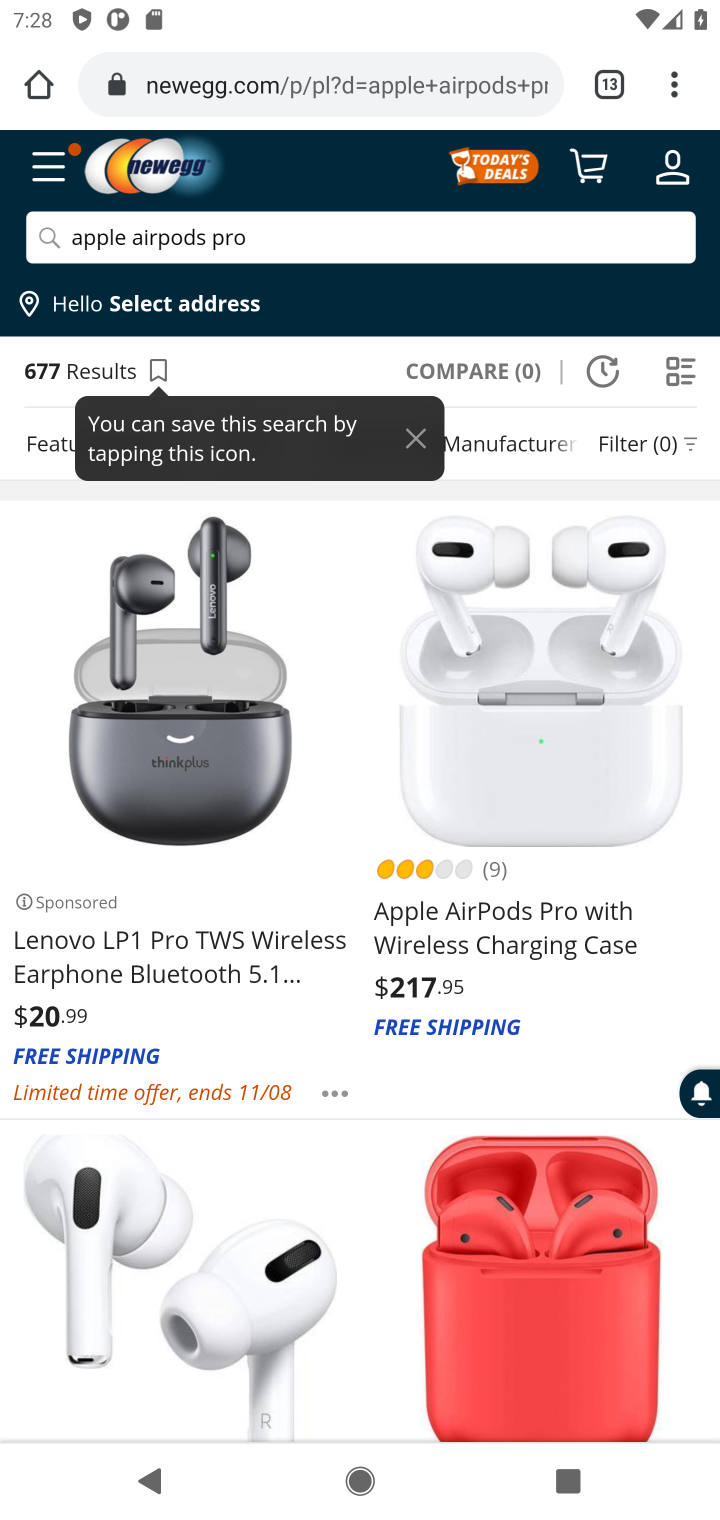
Step 27: click (189, 915)
Your task to perform on an android device: Search for "apple airpods pro" on newegg, select the first entry, add it to the cart, then select checkout. Image 28: 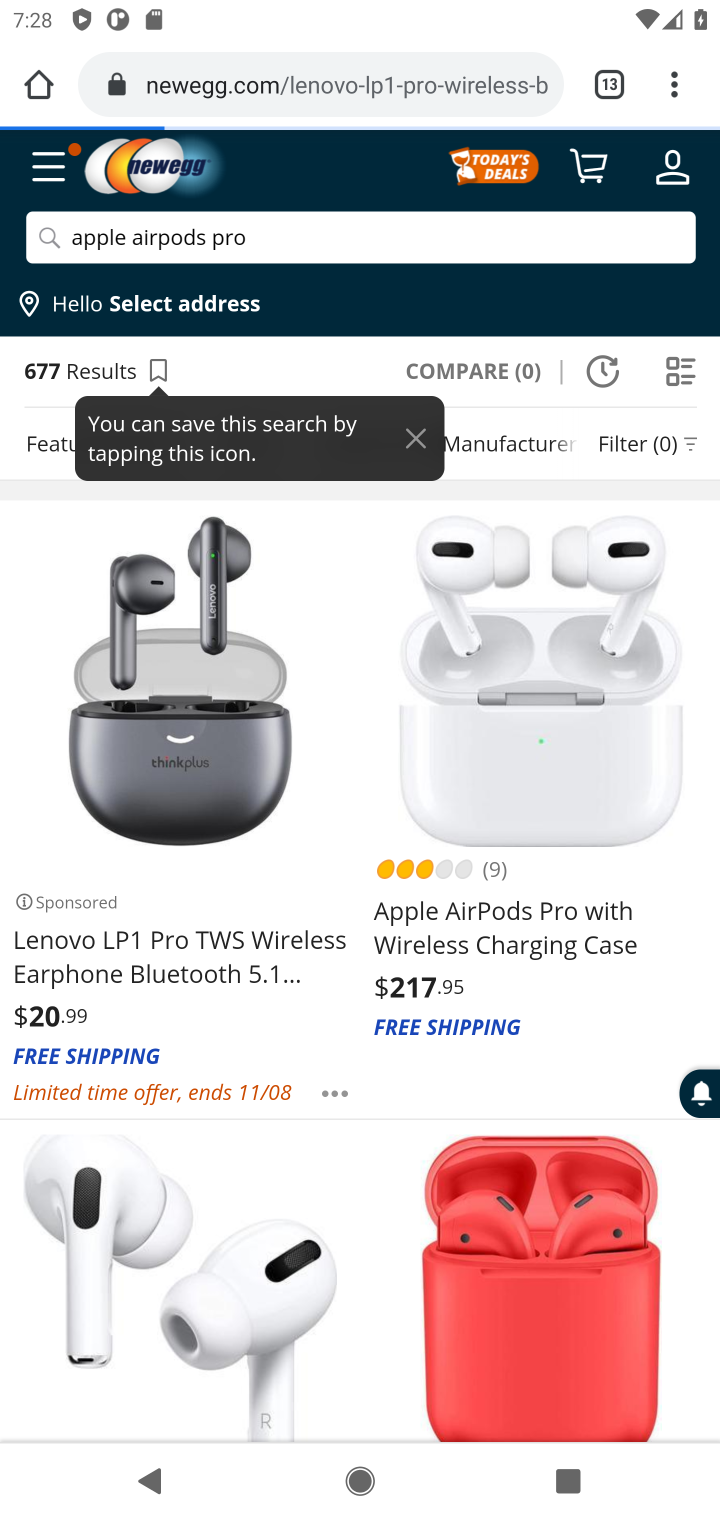
Step 28: click (134, 964)
Your task to perform on an android device: Search for "apple airpods pro" on newegg, select the first entry, add it to the cart, then select checkout. Image 29: 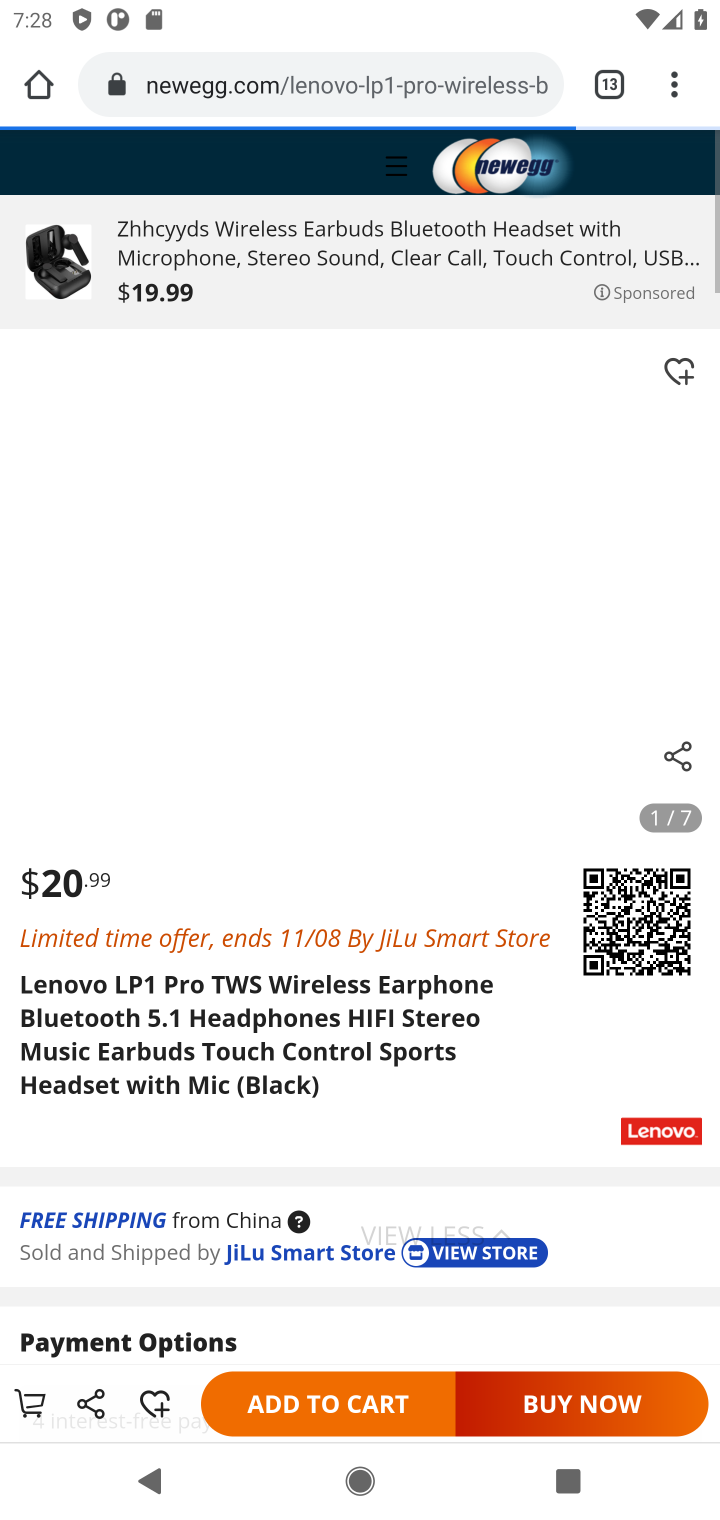
Step 29: click (134, 964)
Your task to perform on an android device: Search for "apple airpods pro" on newegg, select the first entry, add it to the cart, then select checkout. Image 30: 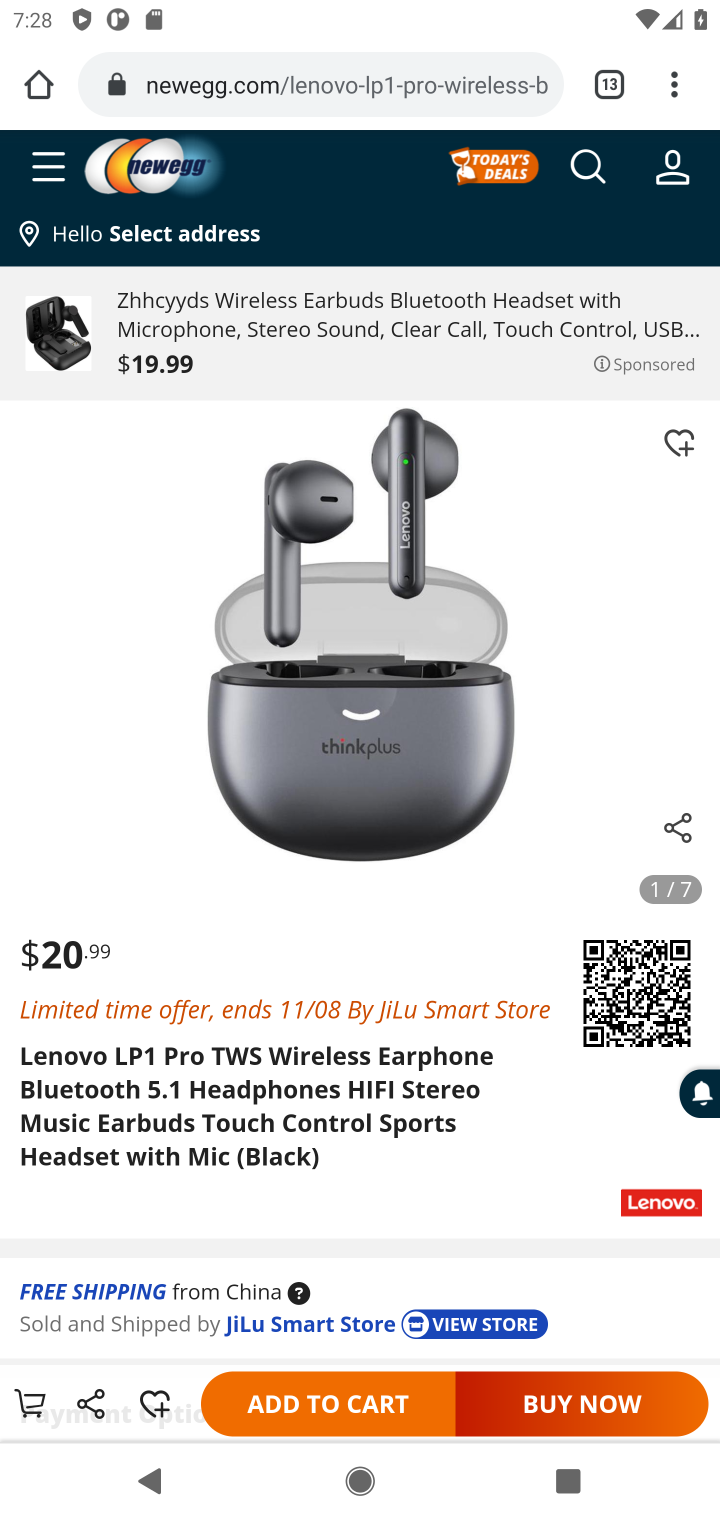
Step 30: click (370, 1406)
Your task to perform on an android device: Search for "apple airpods pro" on newegg, select the first entry, add it to the cart, then select checkout. Image 31: 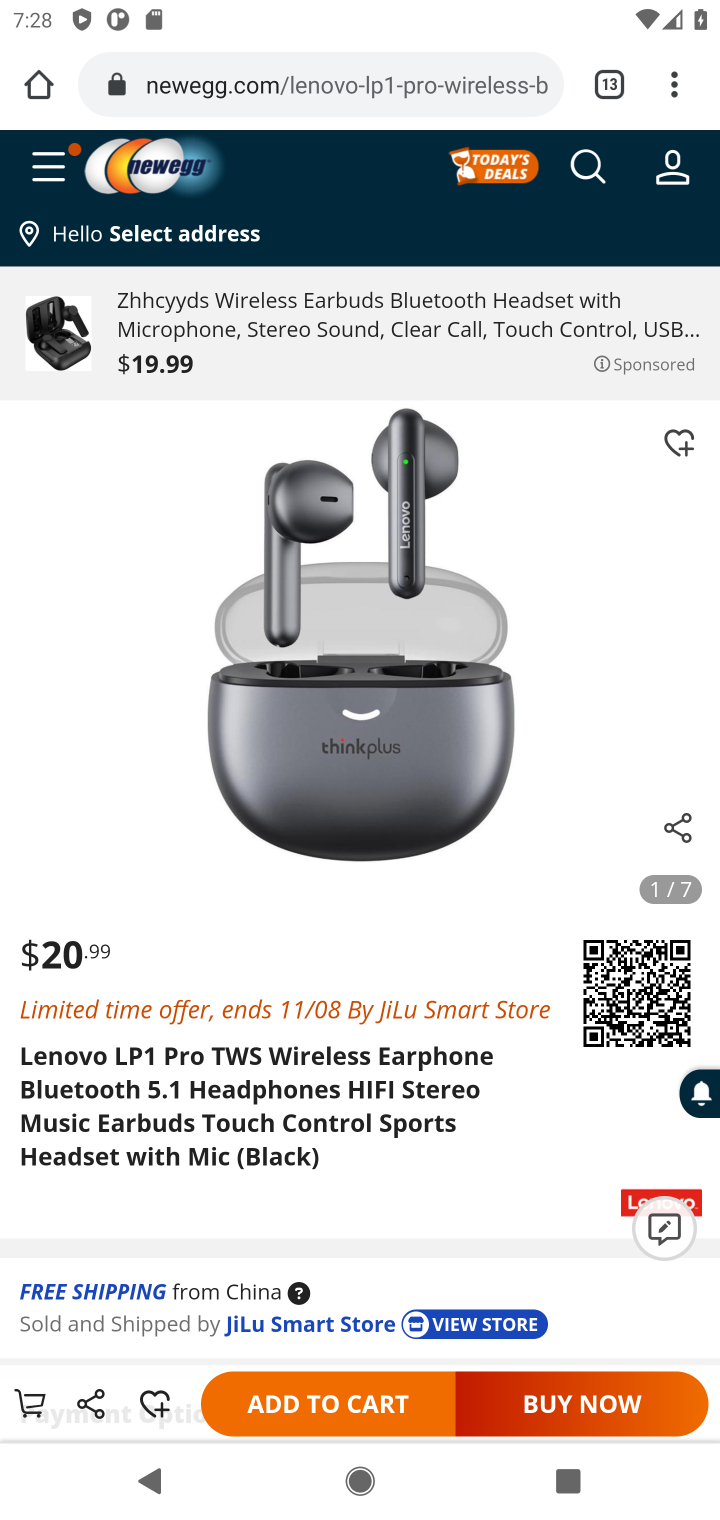
Step 31: click (372, 1408)
Your task to perform on an android device: Search for "apple airpods pro" on newegg, select the first entry, add it to the cart, then select checkout. Image 32: 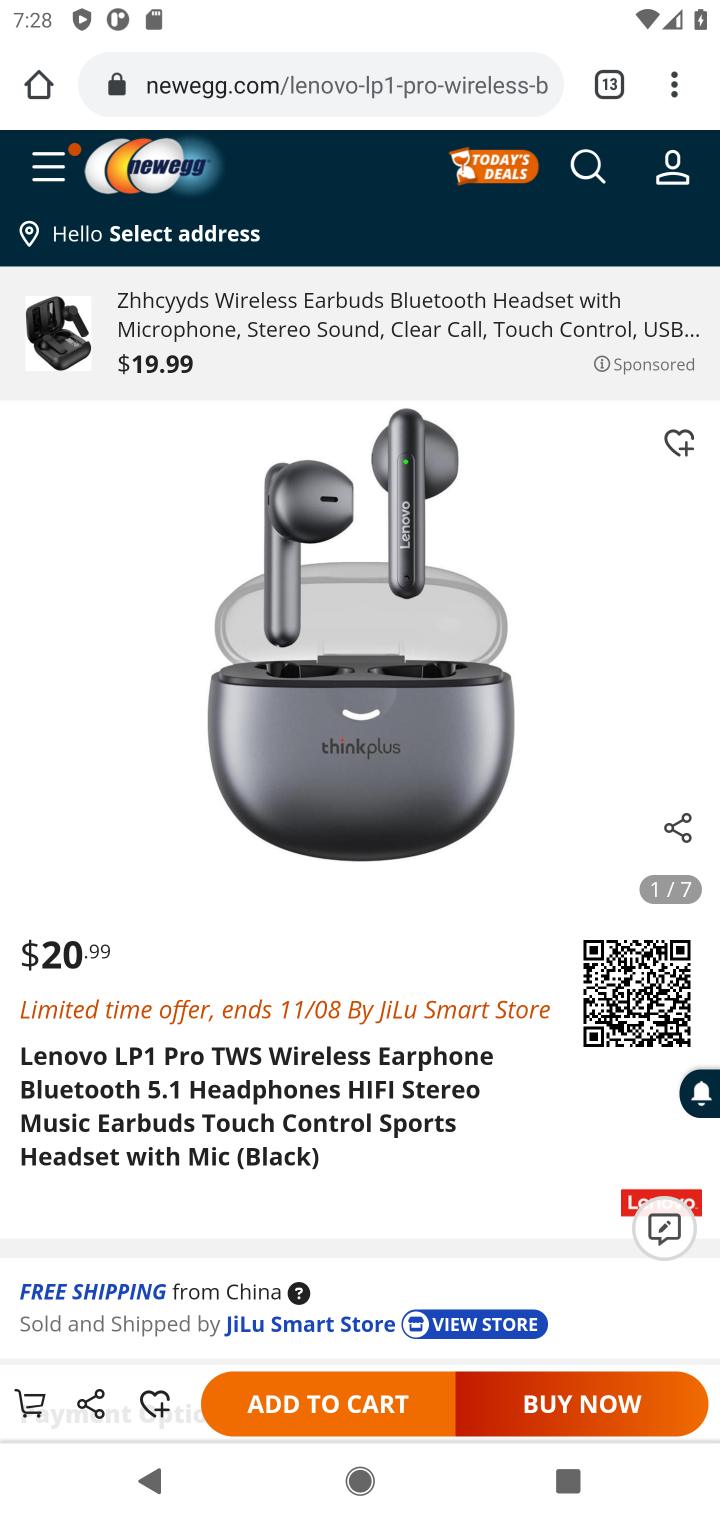
Step 32: click (372, 1408)
Your task to perform on an android device: Search for "apple airpods pro" on newegg, select the first entry, add it to the cart, then select checkout. Image 33: 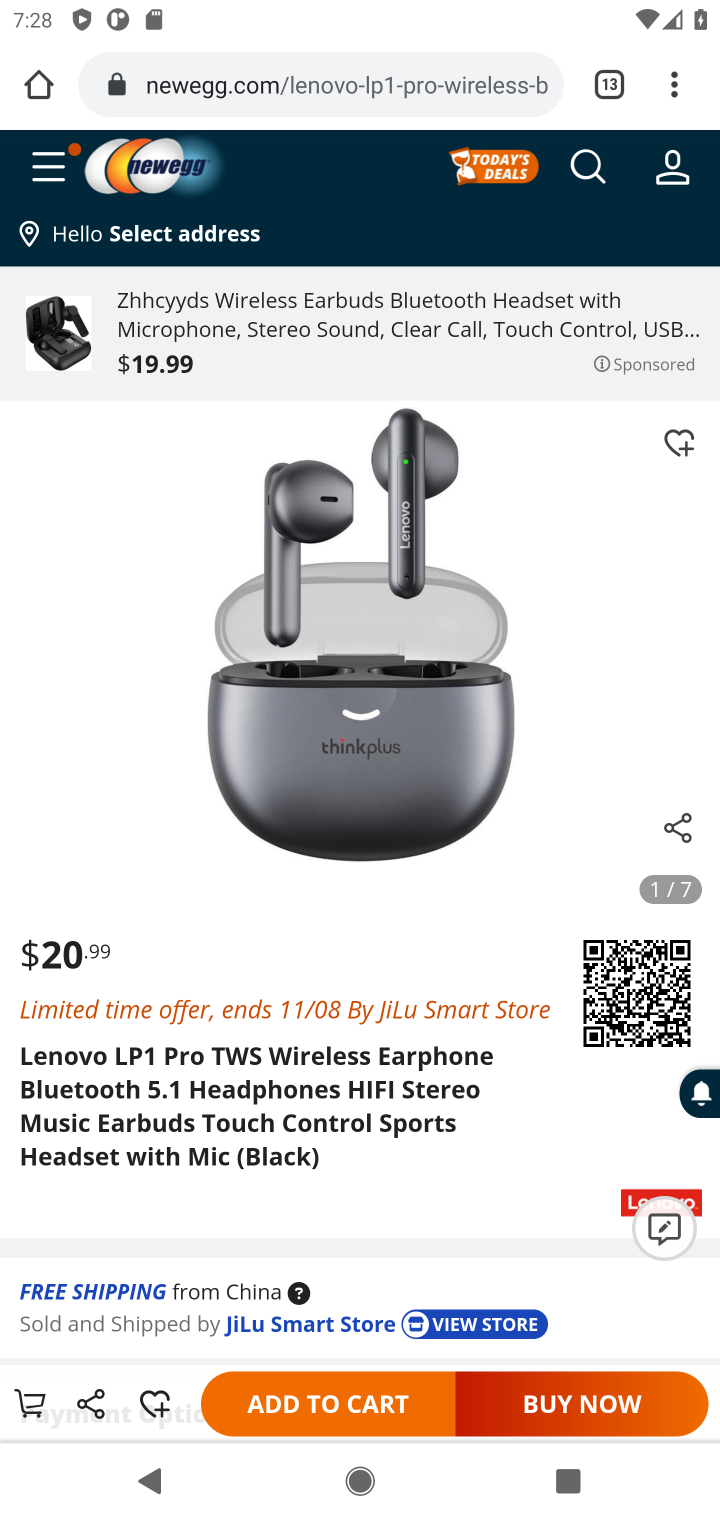
Step 33: drag from (486, 1112) to (488, 875)
Your task to perform on an android device: Search for "apple airpods pro" on newegg, select the first entry, add it to the cart, then select checkout. Image 34: 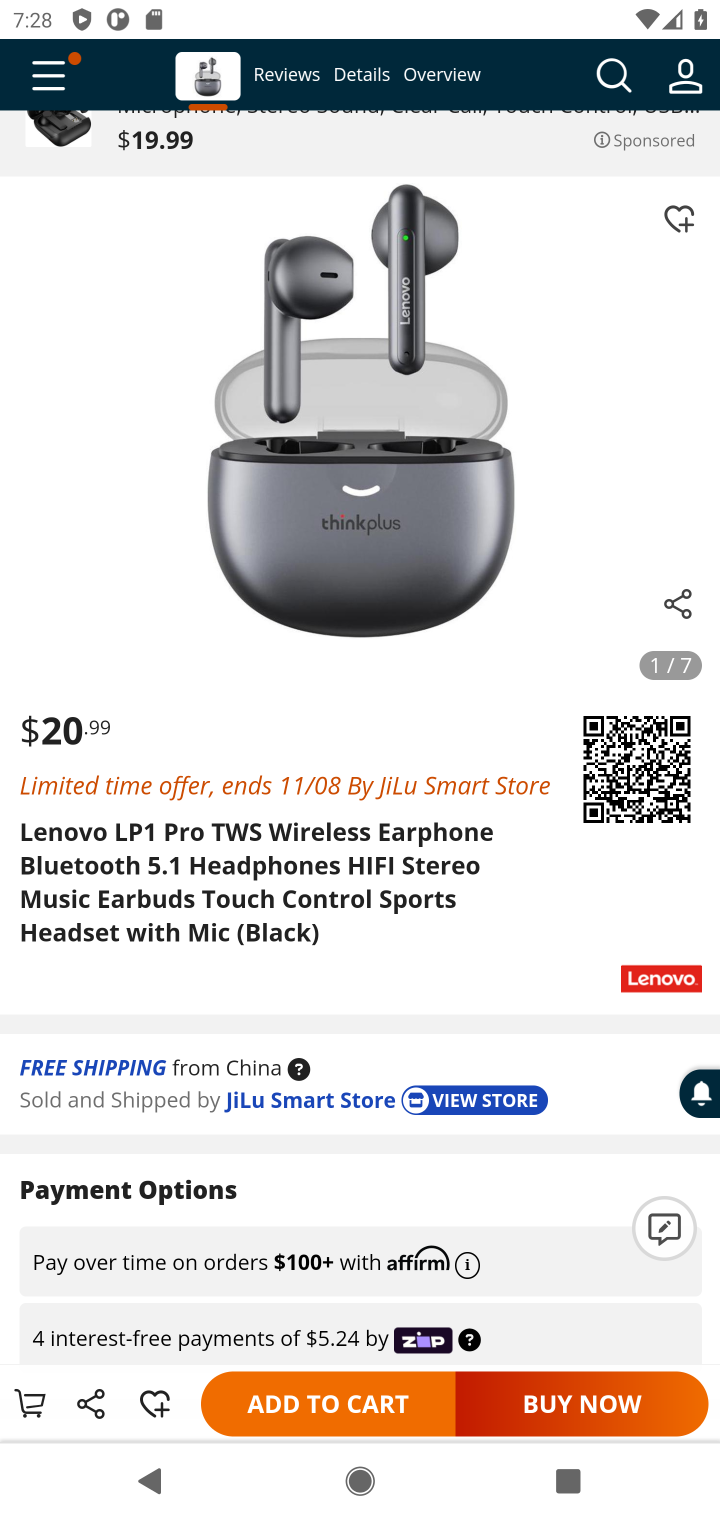
Step 34: click (327, 1391)
Your task to perform on an android device: Search for "apple airpods pro" on newegg, select the first entry, add it to the cart, then select checkout. Image 35: 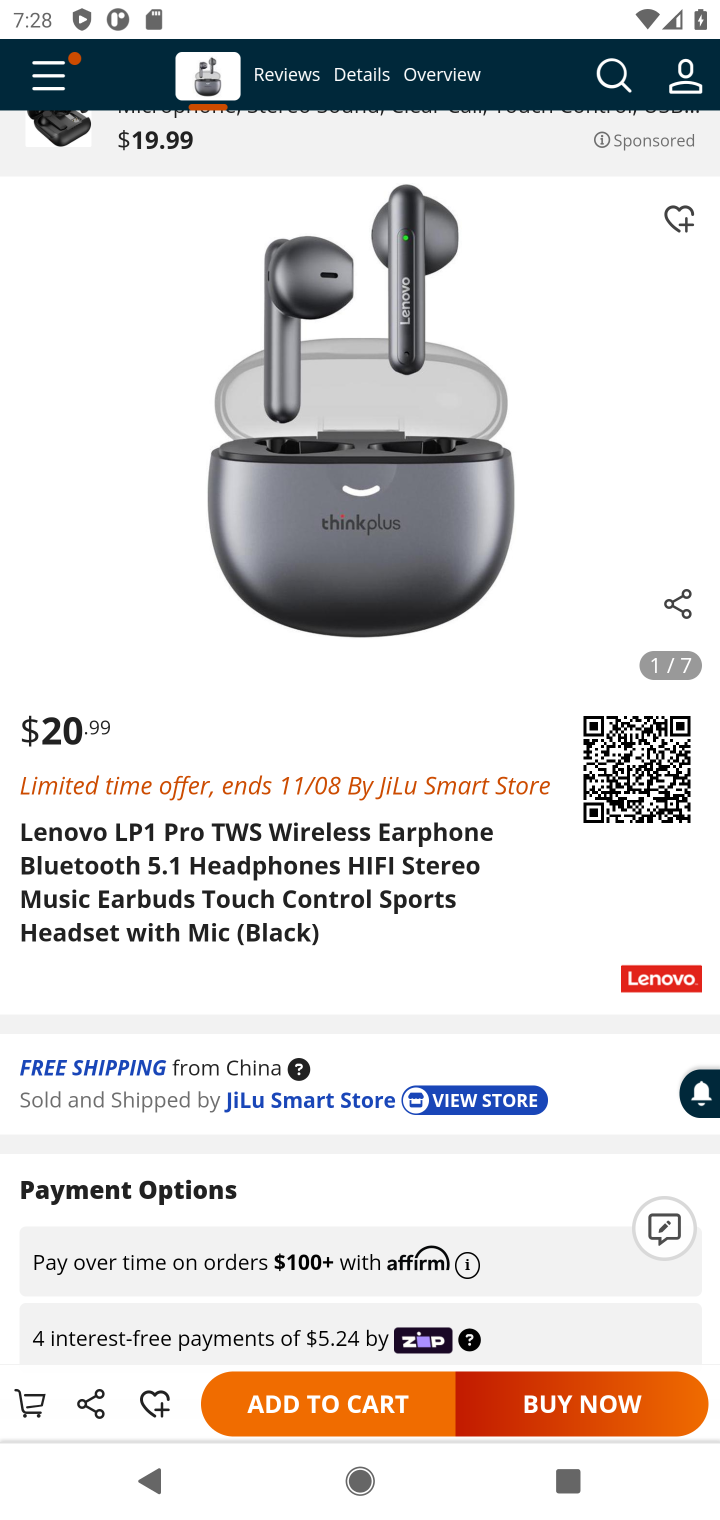
Step 35: task complete